Your task to perform on an android device: Find a nice sofa on eBay Image 0: 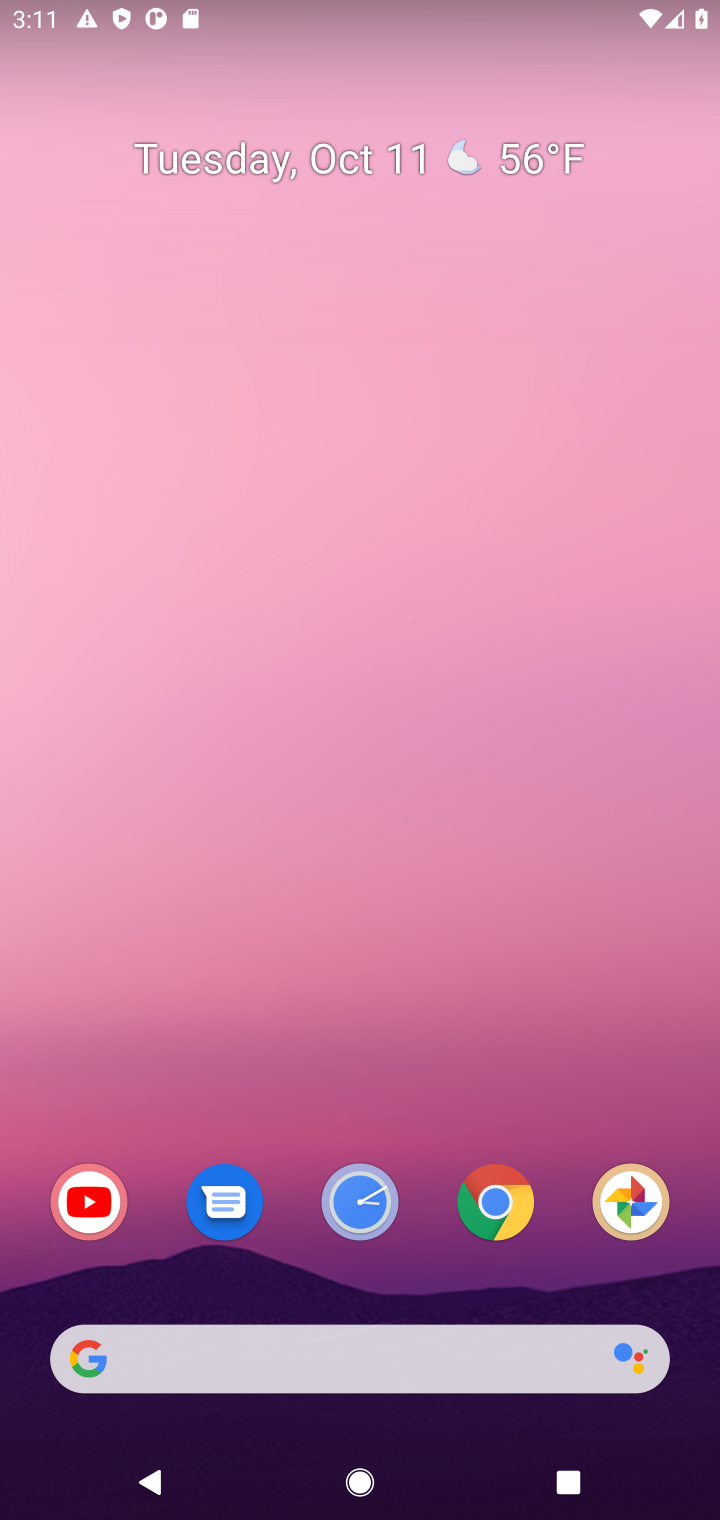
Step 0: click (488, 1218)
Your task to perform on an android device: Find a nice sofa on eBay Image 1: 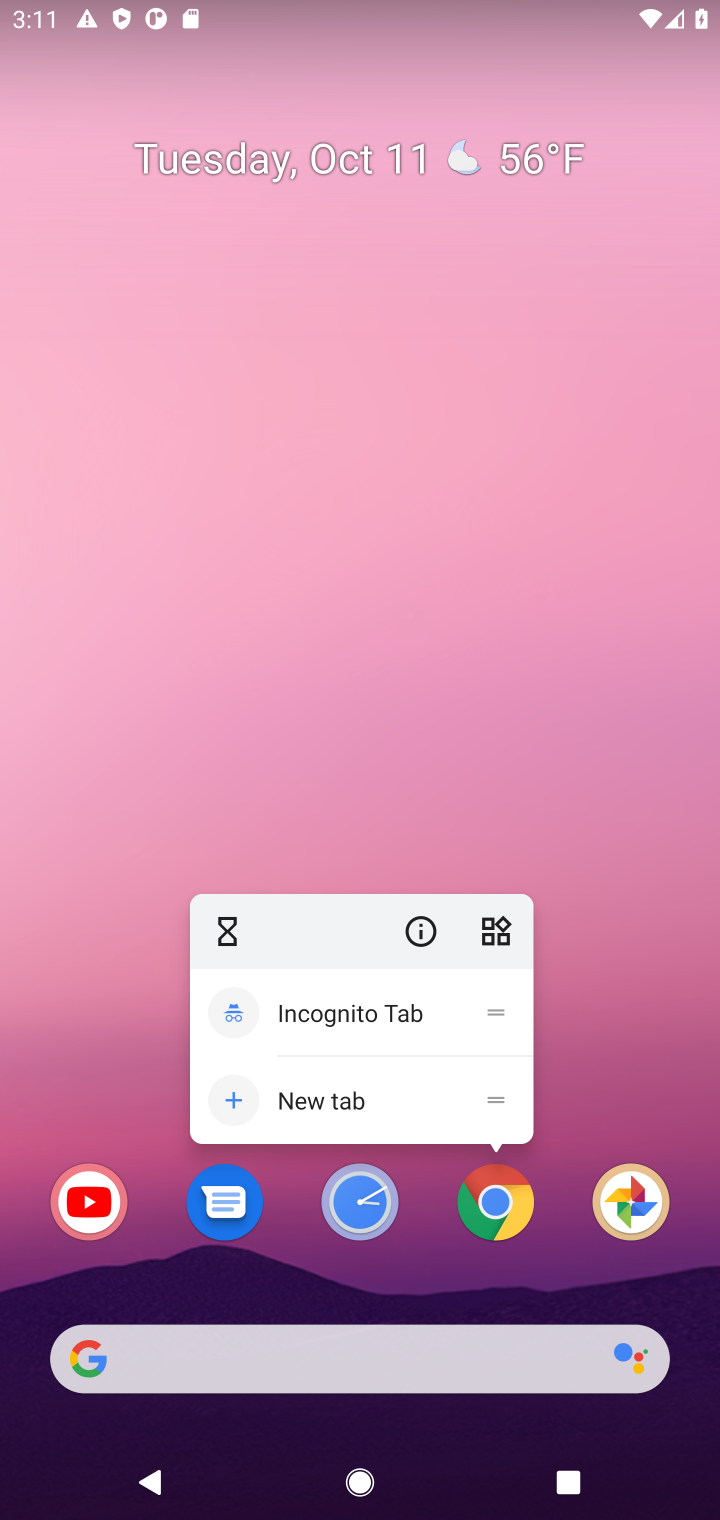
Step 1: drag from (453, 1289) to (561, 206)
Your task to perform on an android device: Find a nice sofa on eBay Image 2: 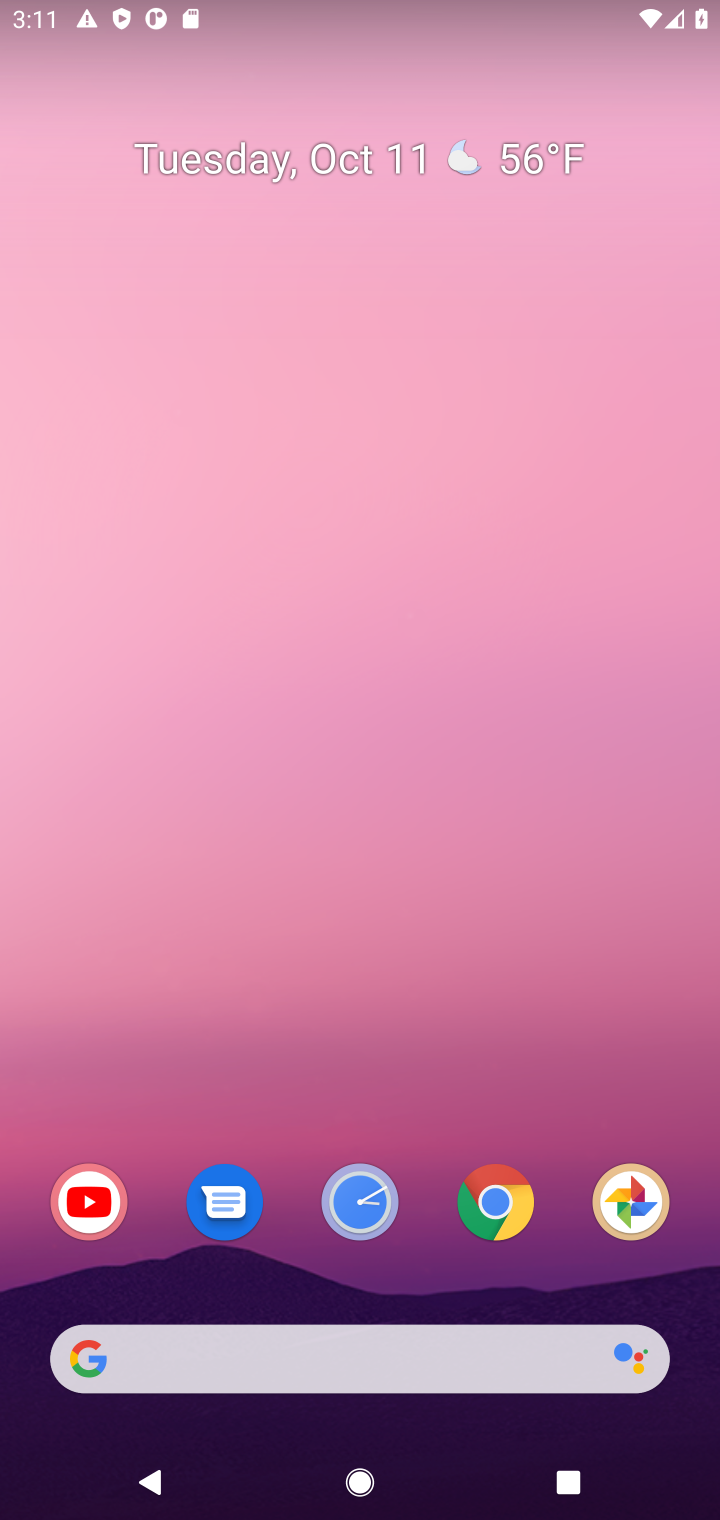
Step 2: drag from (377, 1033) to (495, 352)
Your task to perform on an android device: Find a nice sofa on eBay Image 3: 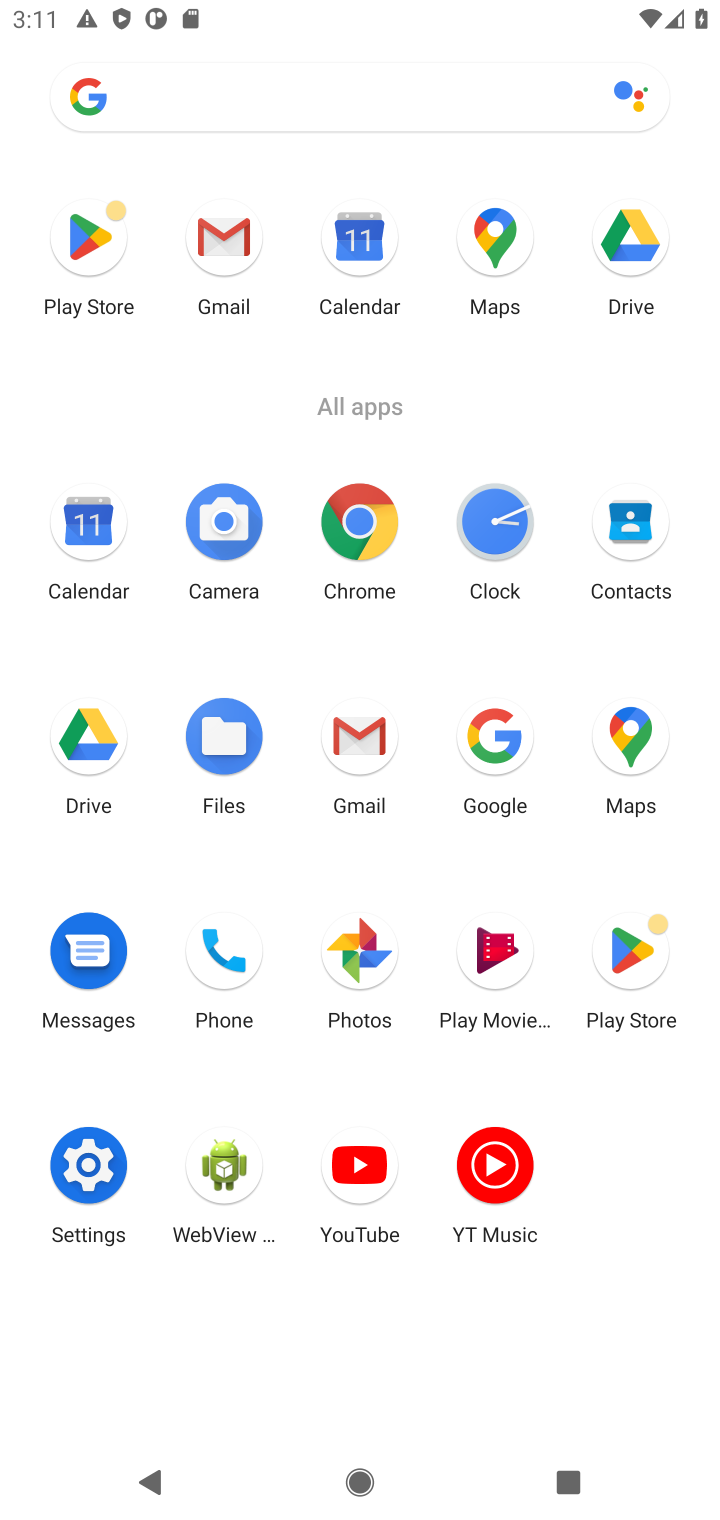
Step 3: click (375, 511)
Your task to perform on an android device: Find a nice sofa on eBay Image 4: 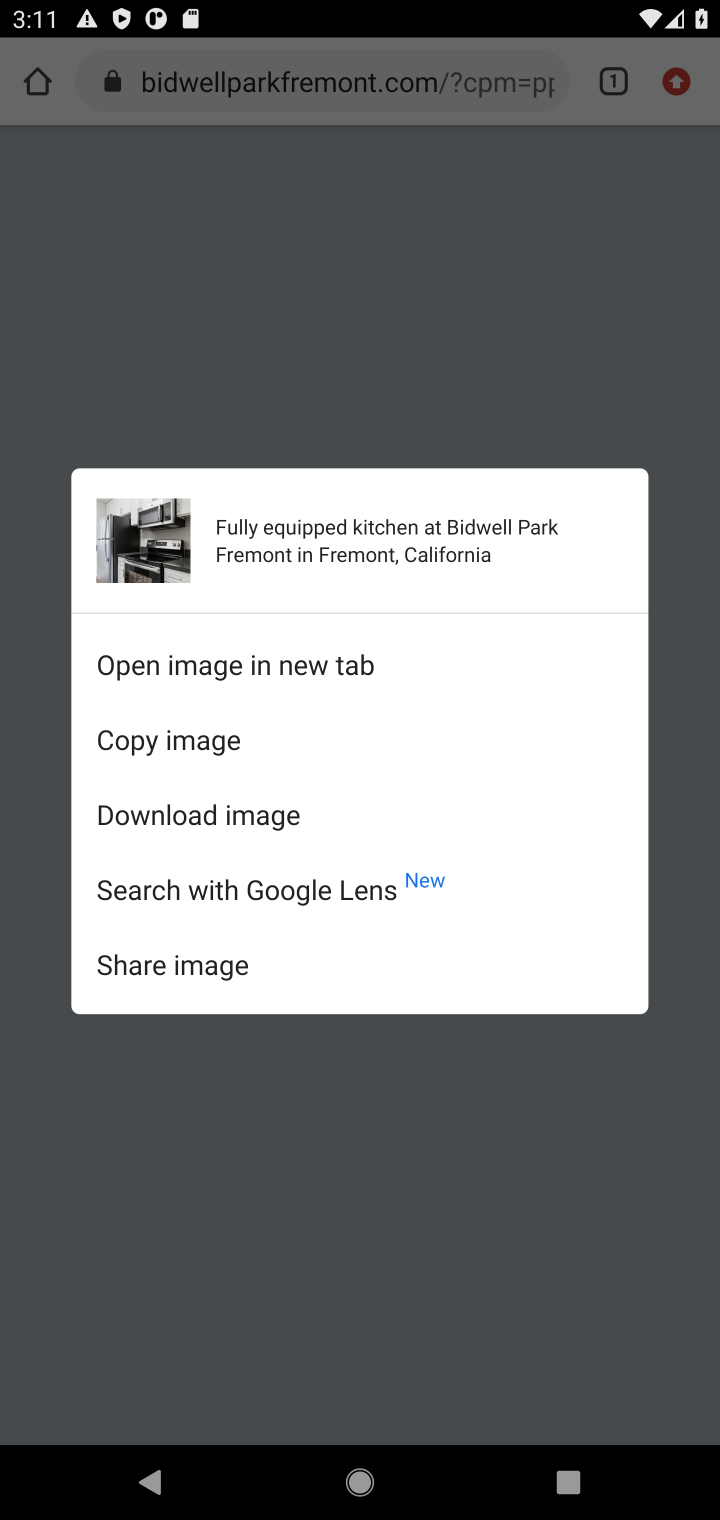
Step 4: click (485, 346)
Your task to perform on an android device: Find a nice sofa on eBay Image 5: 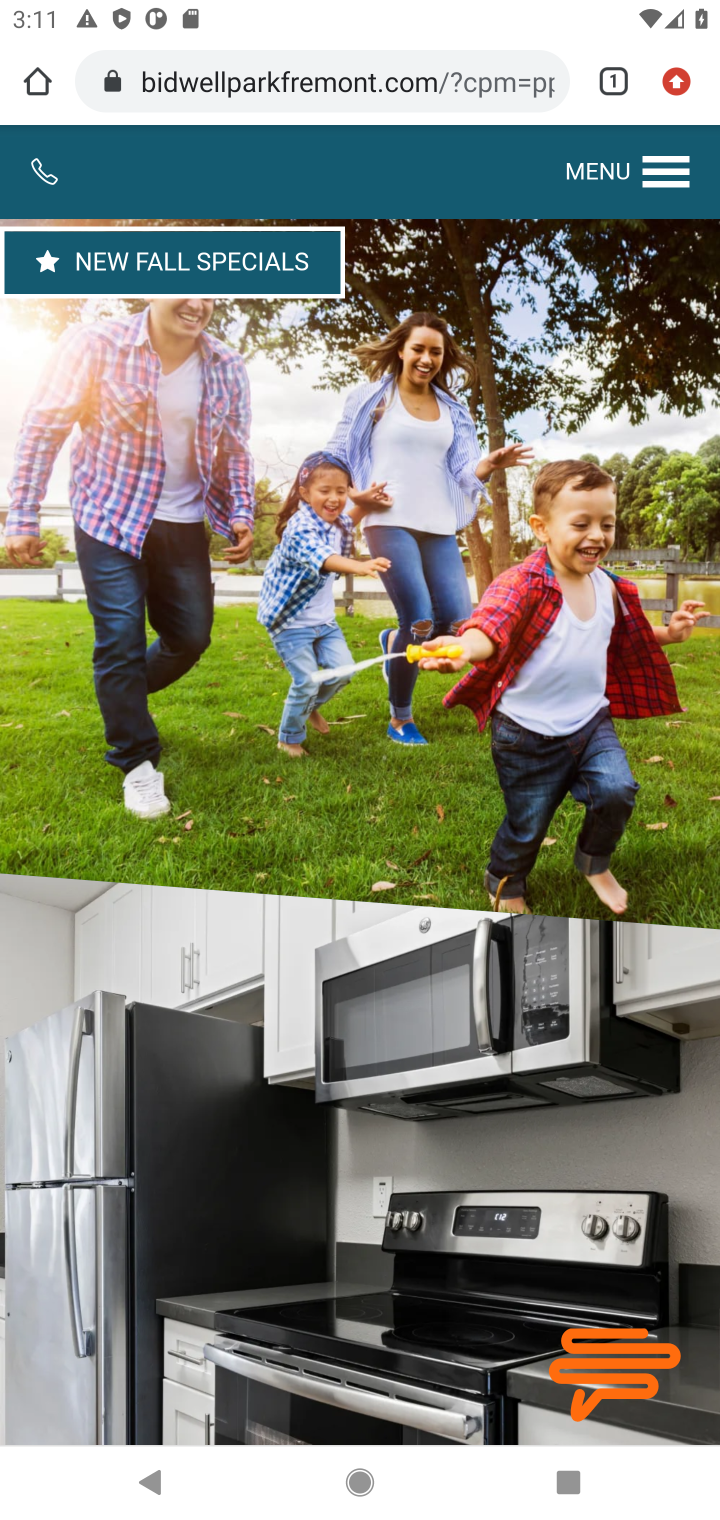
Step 5: click (412, 74)
Your task to perform on an android device: Find a nice sofa on eBay Image 6: 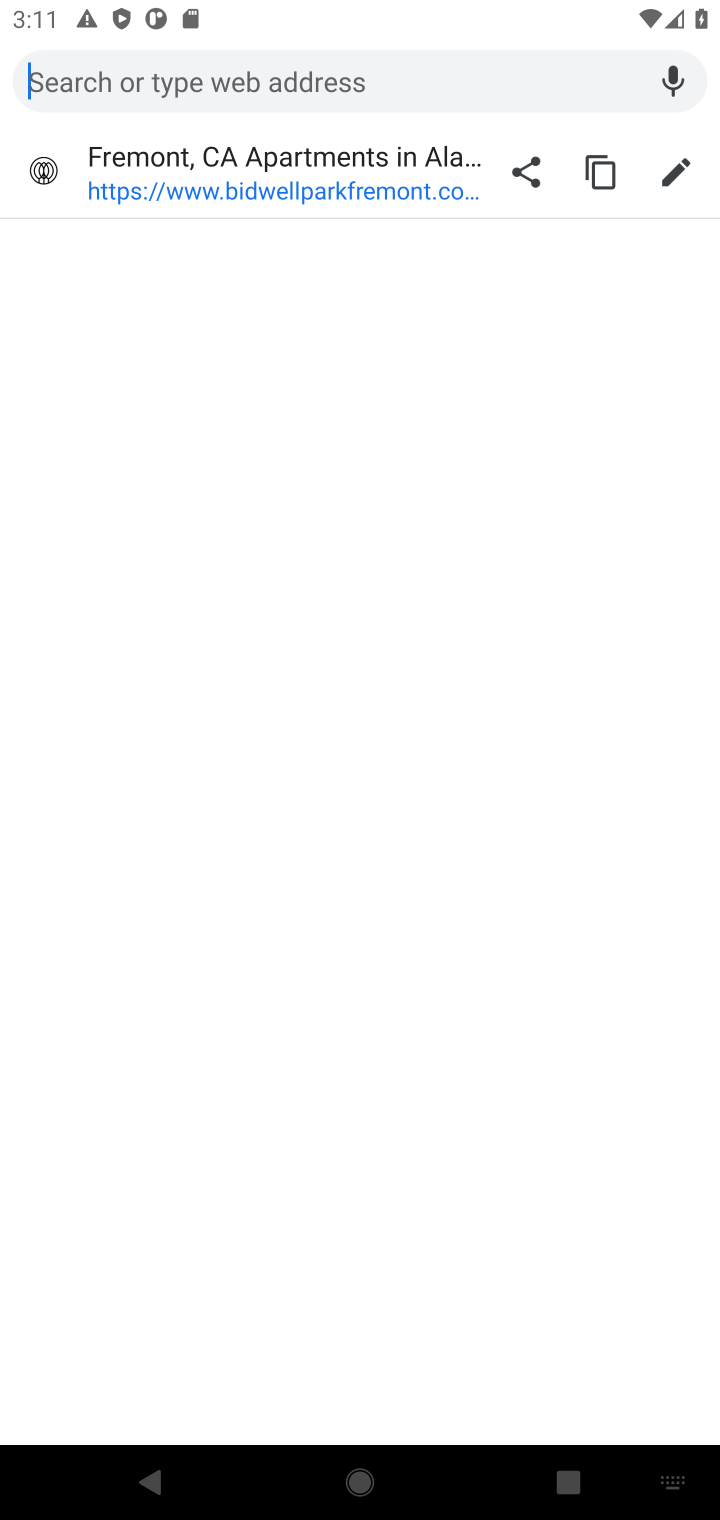
Step 6: type "a nice sofa on eBay"
Your task to perform on an android device: Find a nice sofa on eBay Image 7: 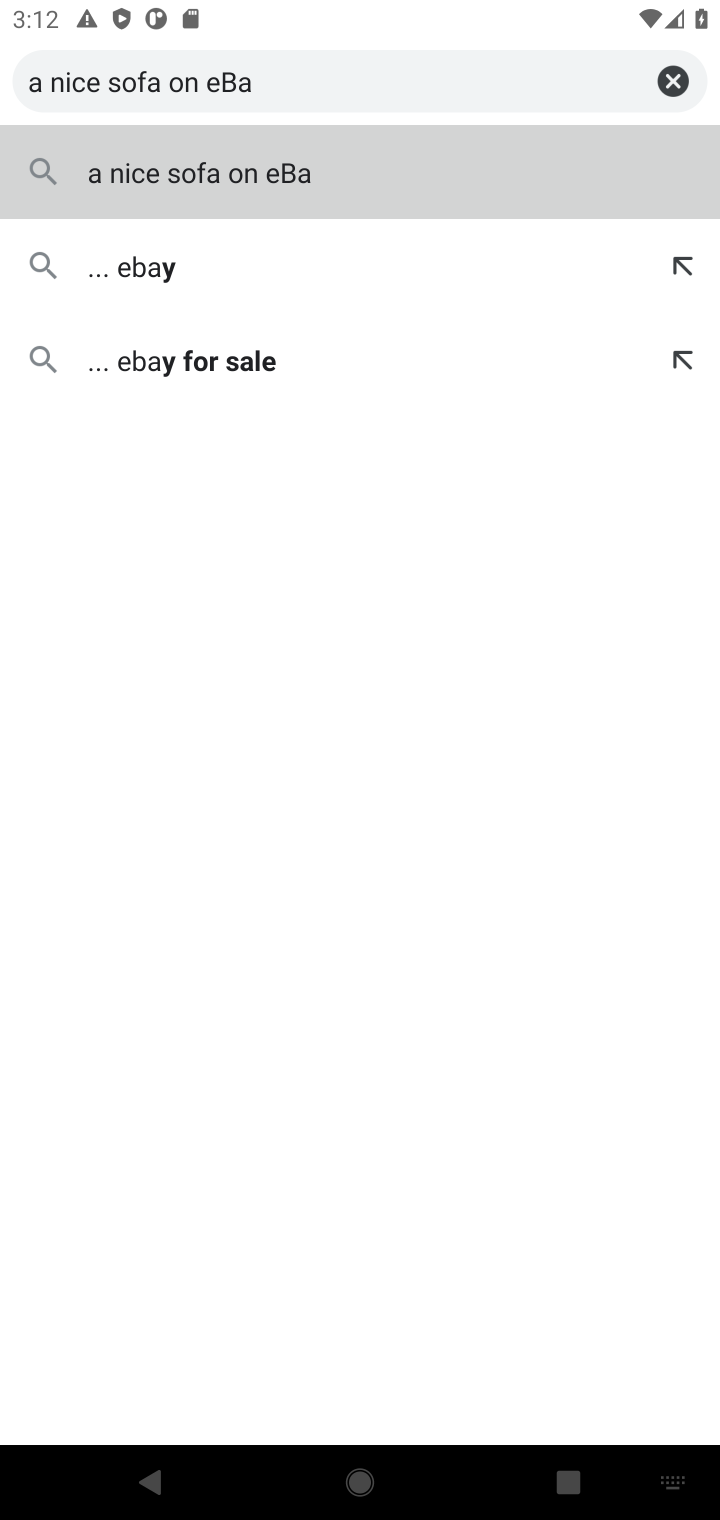
Step 7: type ""
Your task to perform on an android device: Find a nice sofa on eBay Image 8: 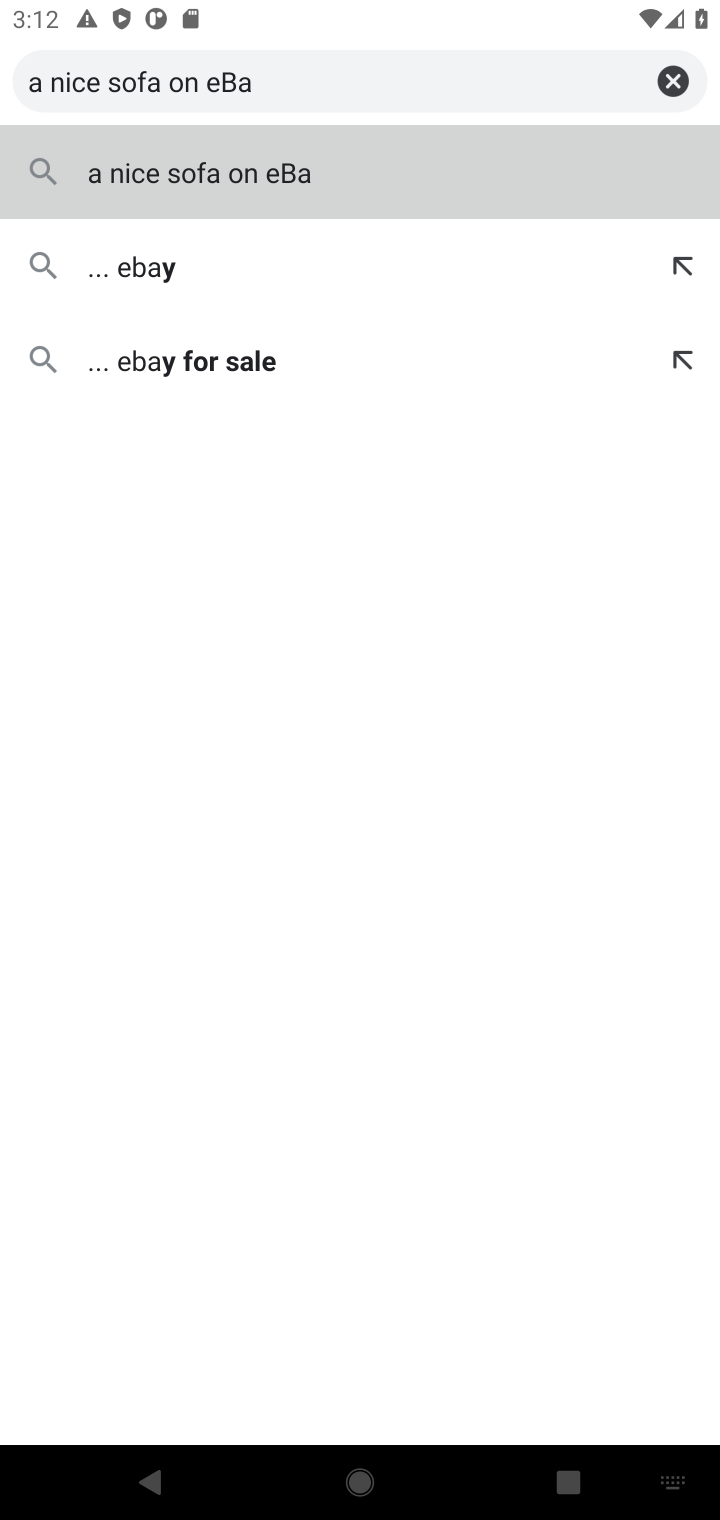
Step 8: click (209, 192)
Your task to perform on an android device: Find a nice sofa on eBay Image 9: 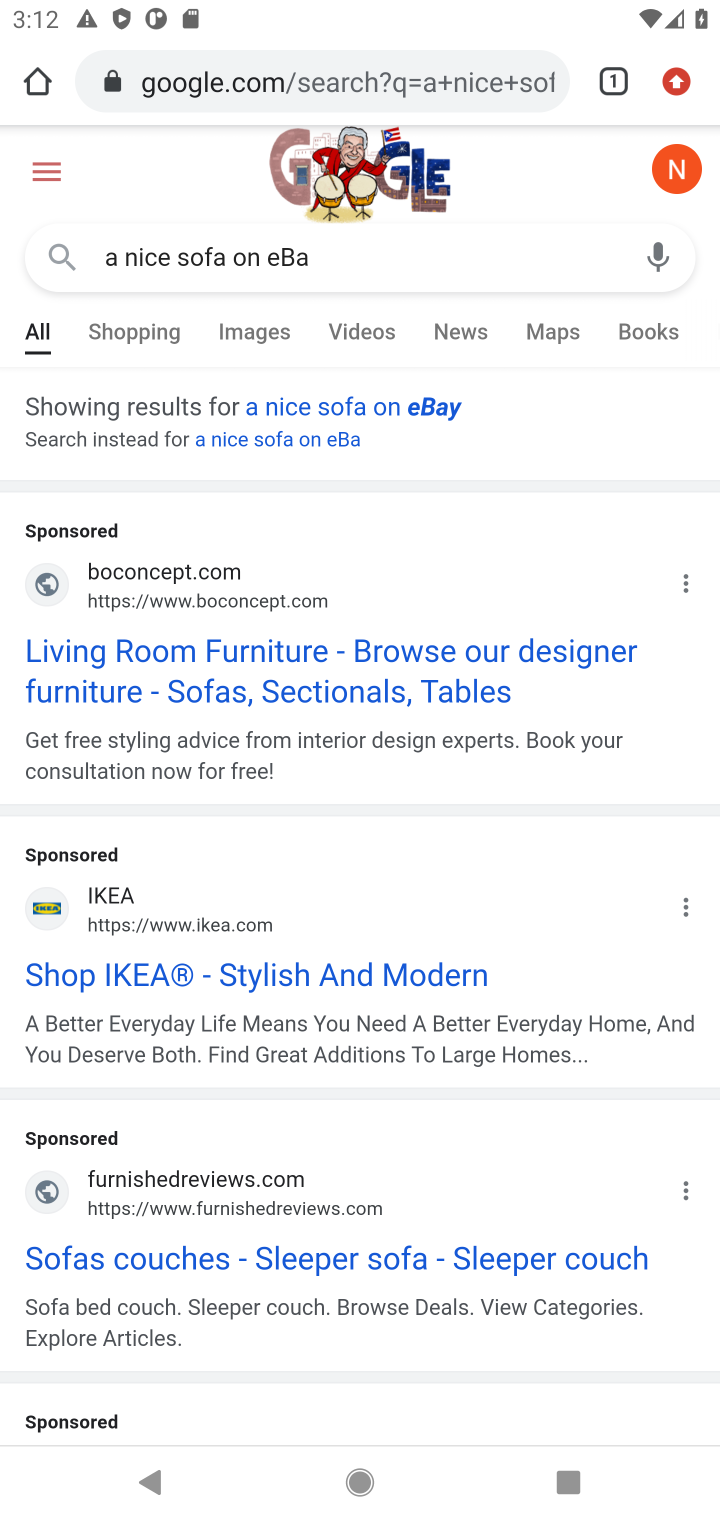
Step 9: drag from (512, 1169) to (536, 590)
Your task to perform on an android device: Find a nice sofa on eBay Image 10: 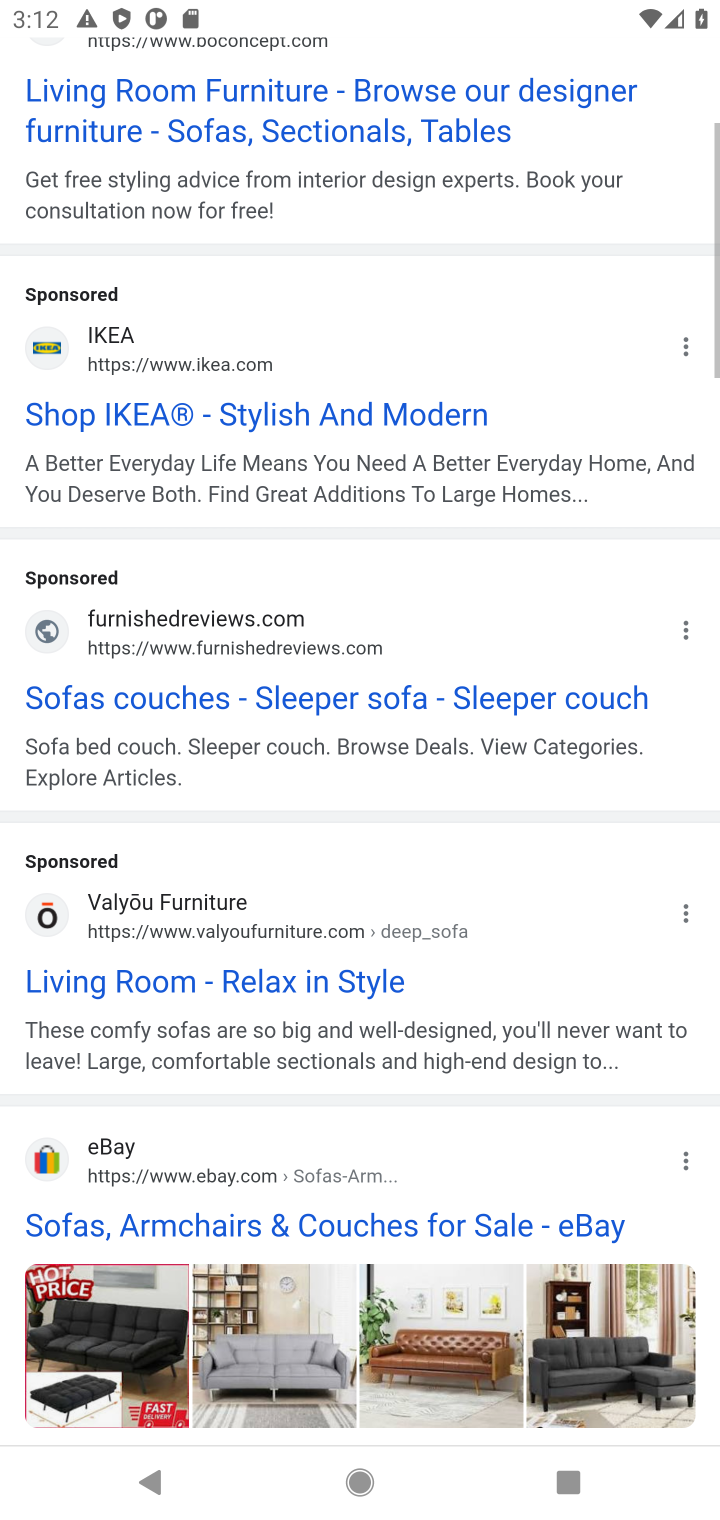
Step 10: click (391, 402)
Your task to perform on an android device: Find a nice sofa on eBay Image 11: 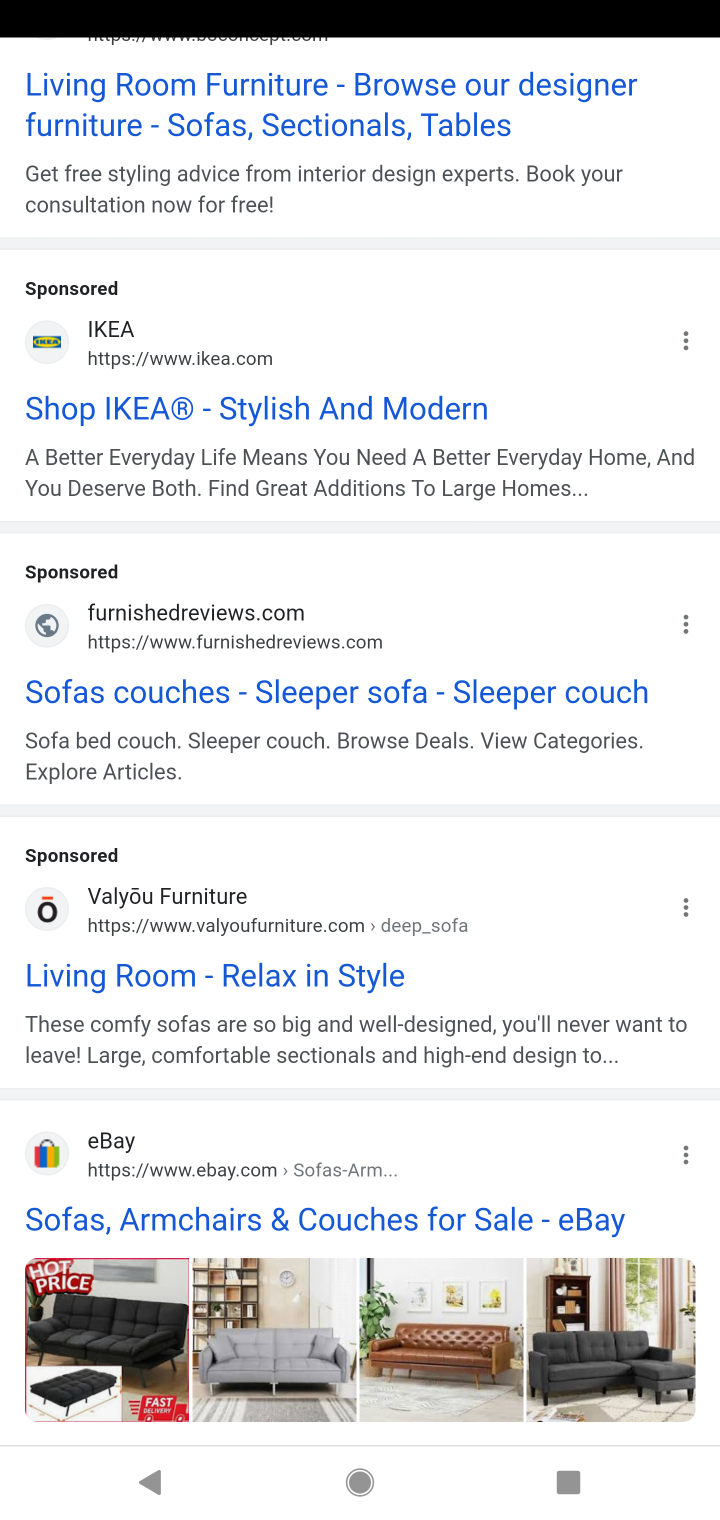
Step 11: click (519, 1268)
Your task to perform on an android device: Find a nice sofa on eBay Image 12: 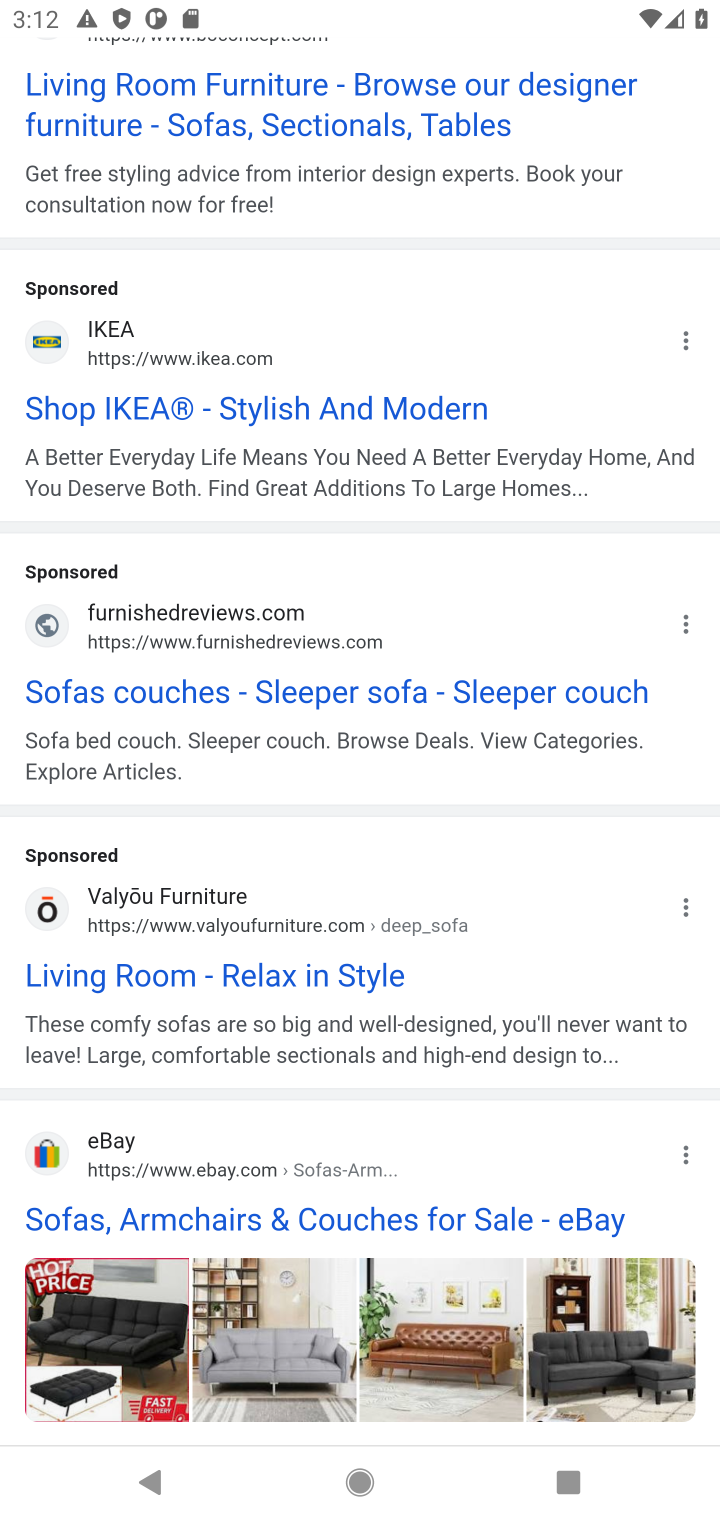
Step 12: click (361, 1238)
Your task to perform on an android device: Find a nice sofa on eBay Image 13: 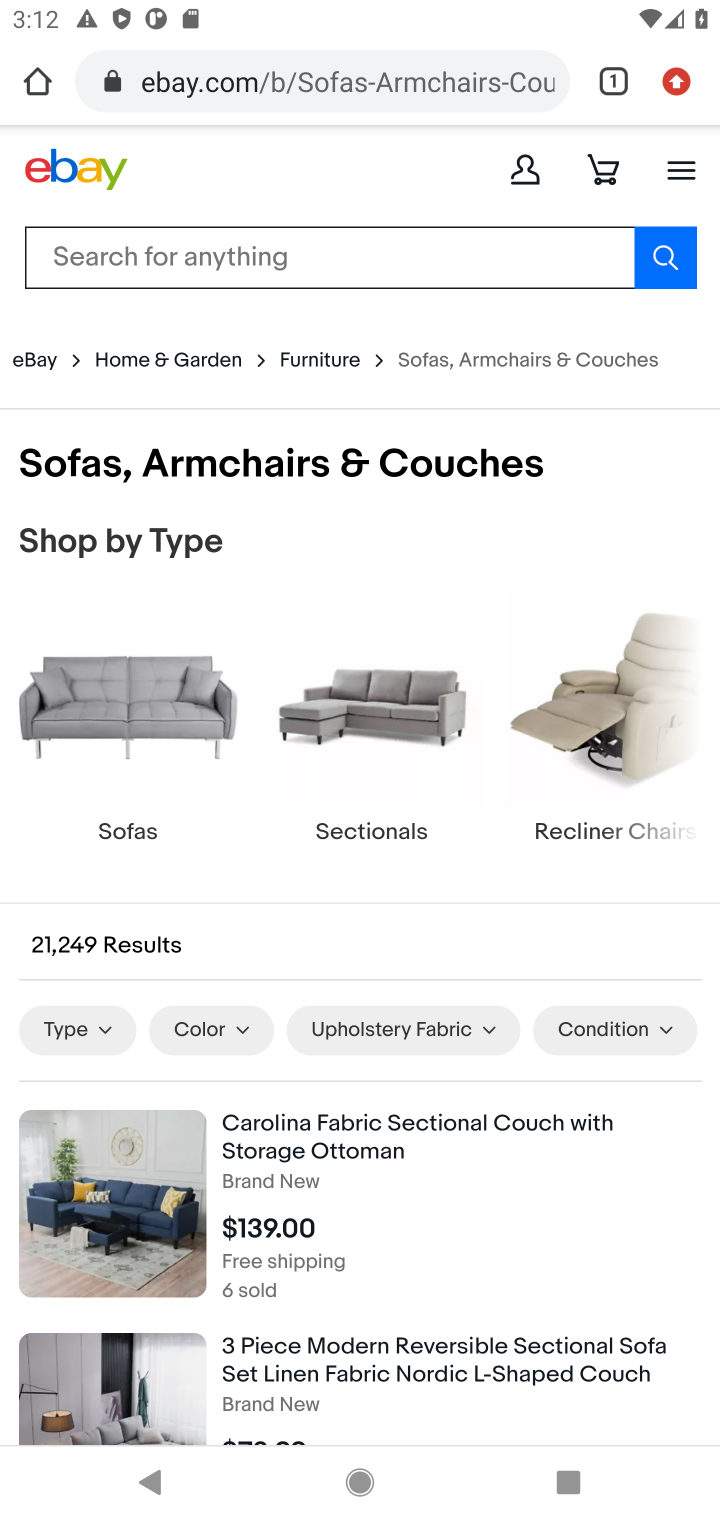
Step 13: drag from (361, 1222) to (358, 709)
Your task to perform on an android device: Find a nice sofa on eBay Image 14: 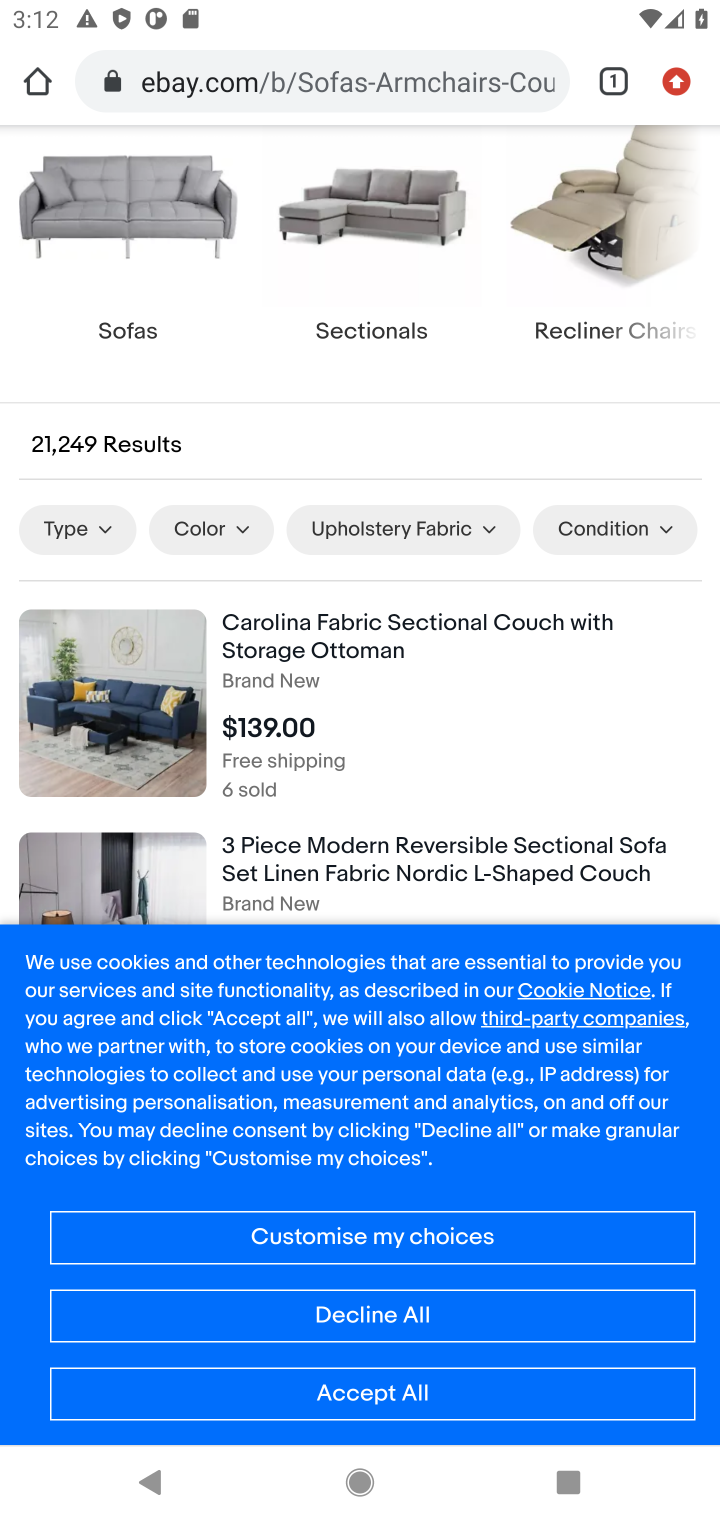
Step 14: click (471, 1324)
Your task to perform on an android device: Find a nice sofa on eBay Image 15: 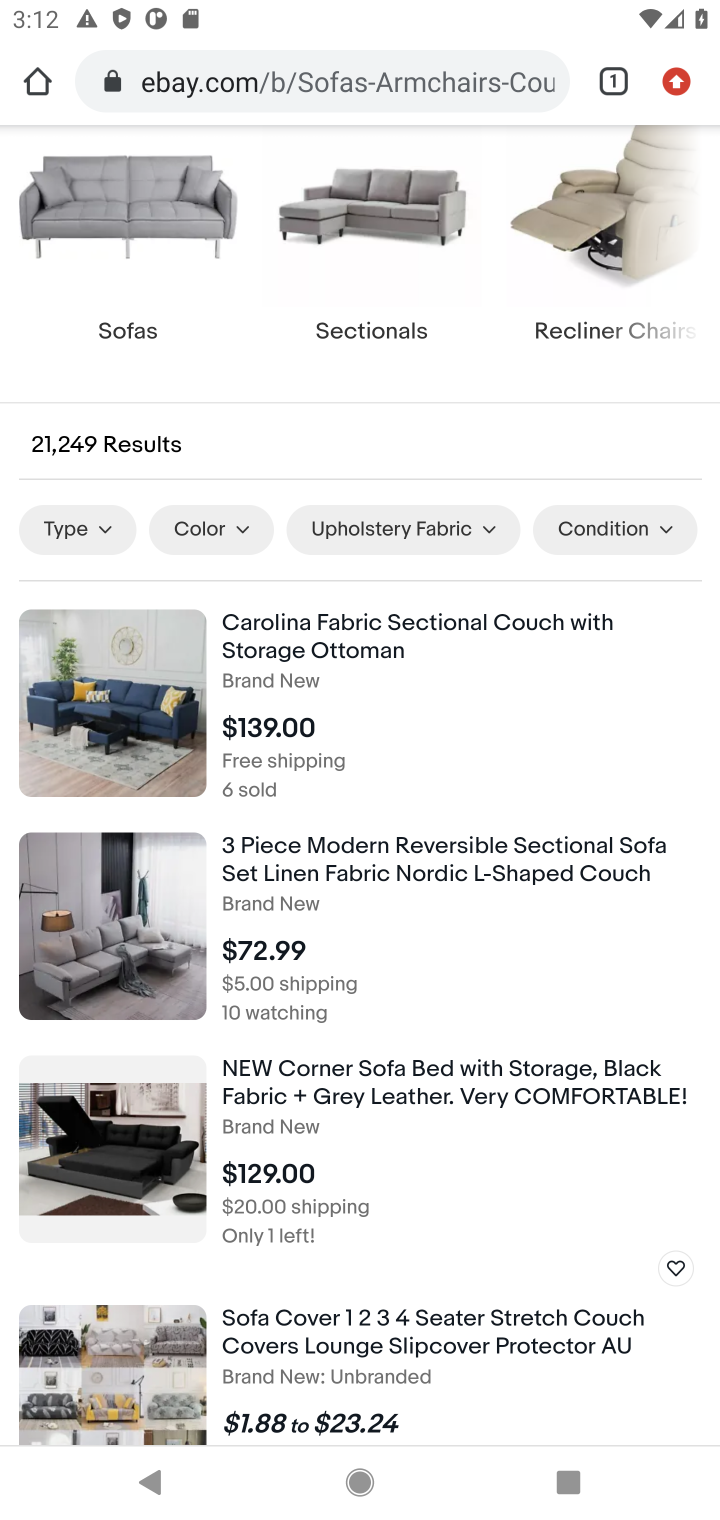
Step 15: drag from (471, 1324) to (497, 667)
Your task to perform on an android device: Find a nice sofa on eBay Image 16: 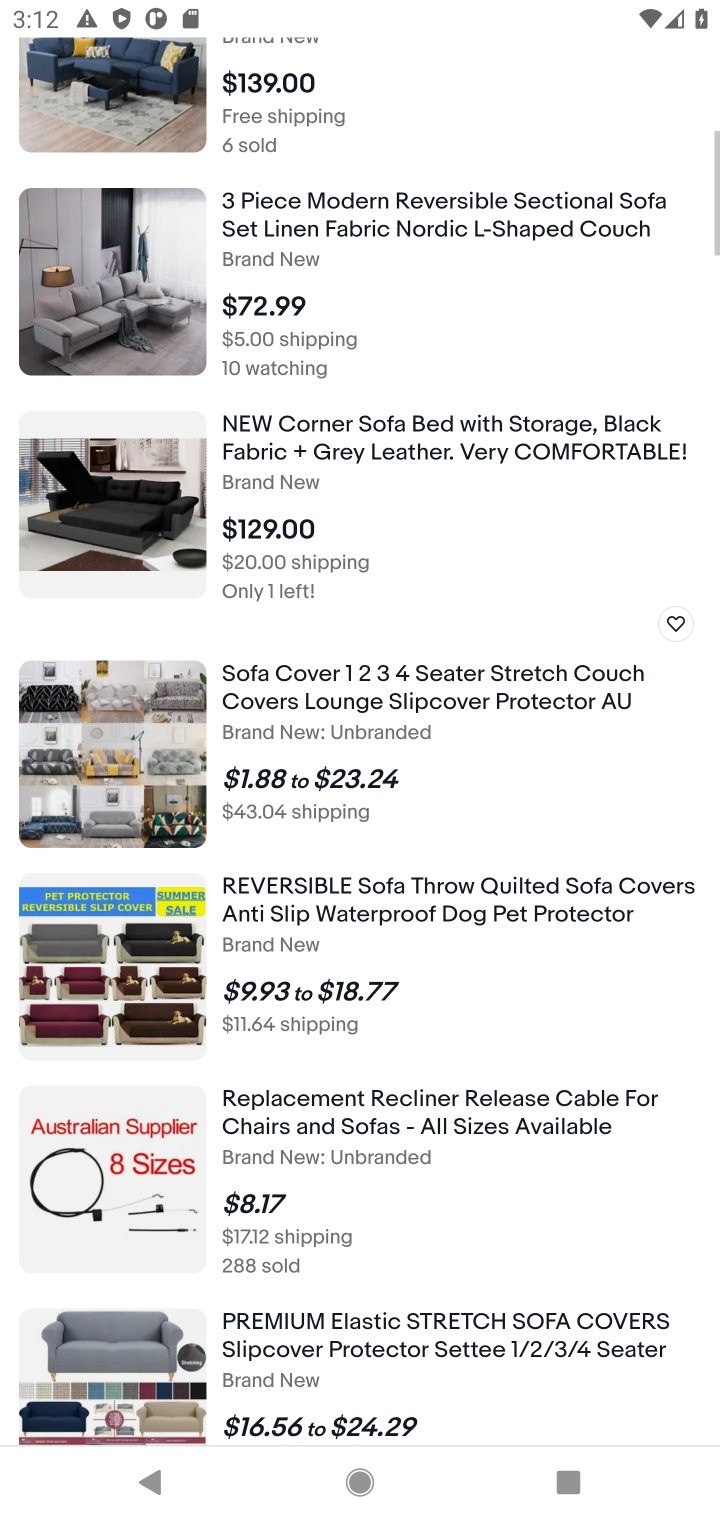
Step 16: drag from (527, 1330) to (581, 878)
Your task to perform on an android device: Find a nice sofa on eBay Image 17: 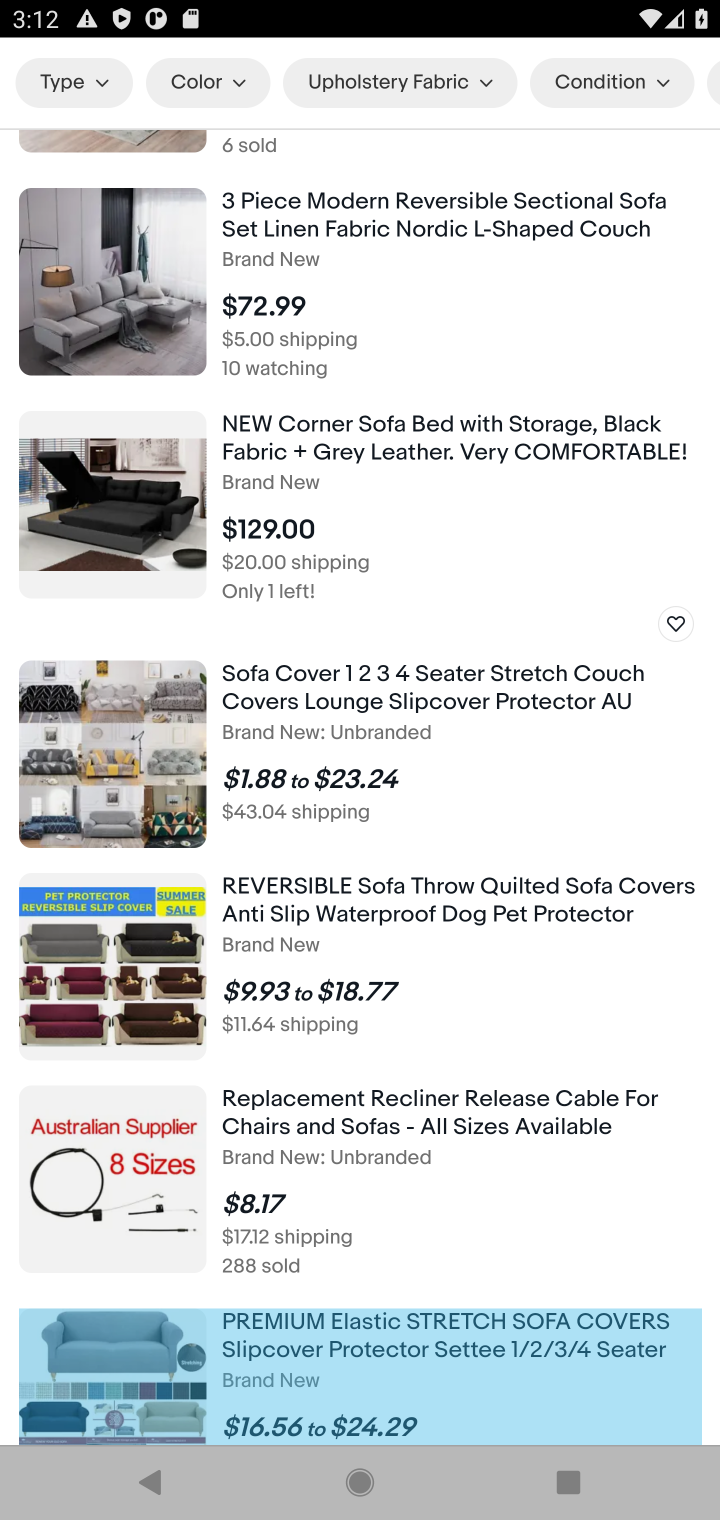
Step 17: drag from (508, 1154) to (568, 497)
Your task to perform on an android device: Find a nice sofa on eBay Image 18: 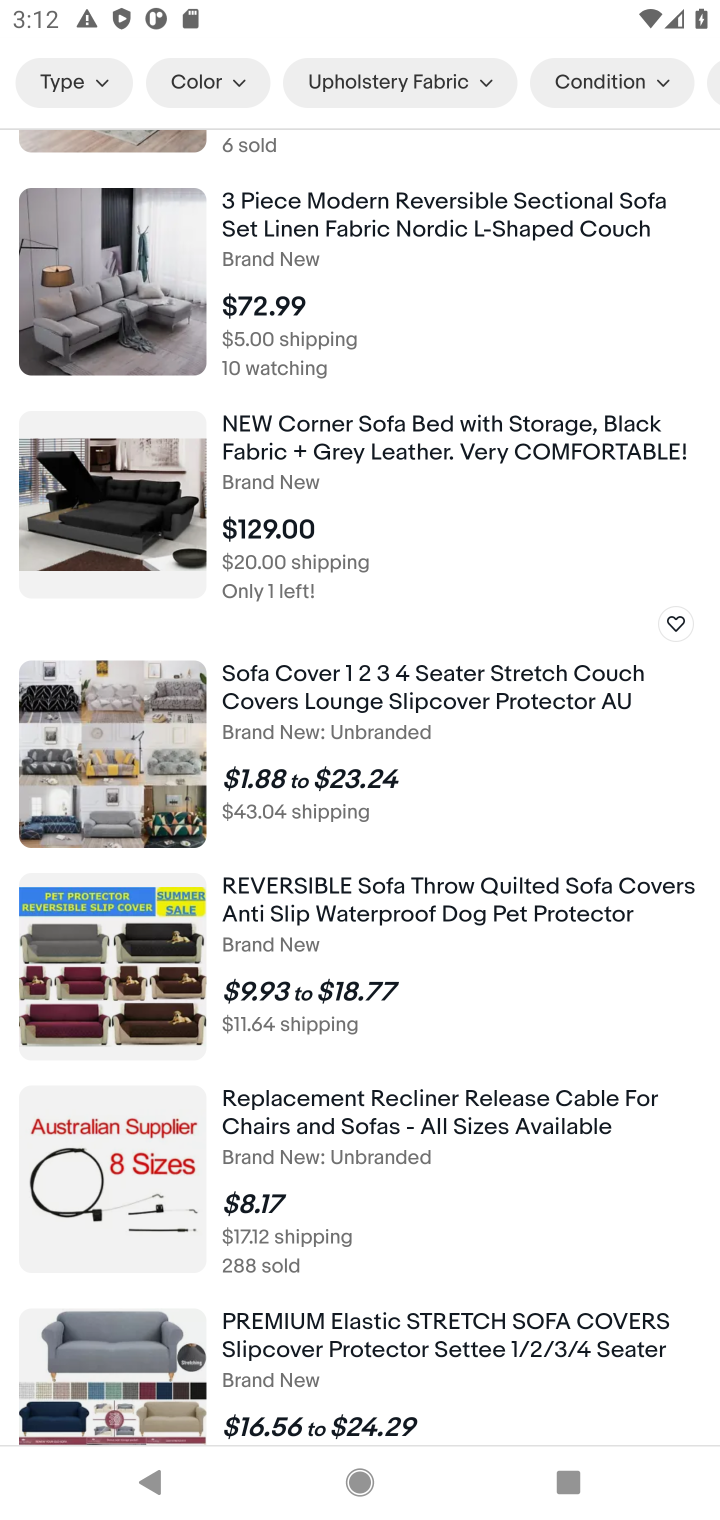
Step 18: drag from (560, 1312) to (667, 423)
Your task to perform on an android device: Find a nice sofa on eBay Image 19: 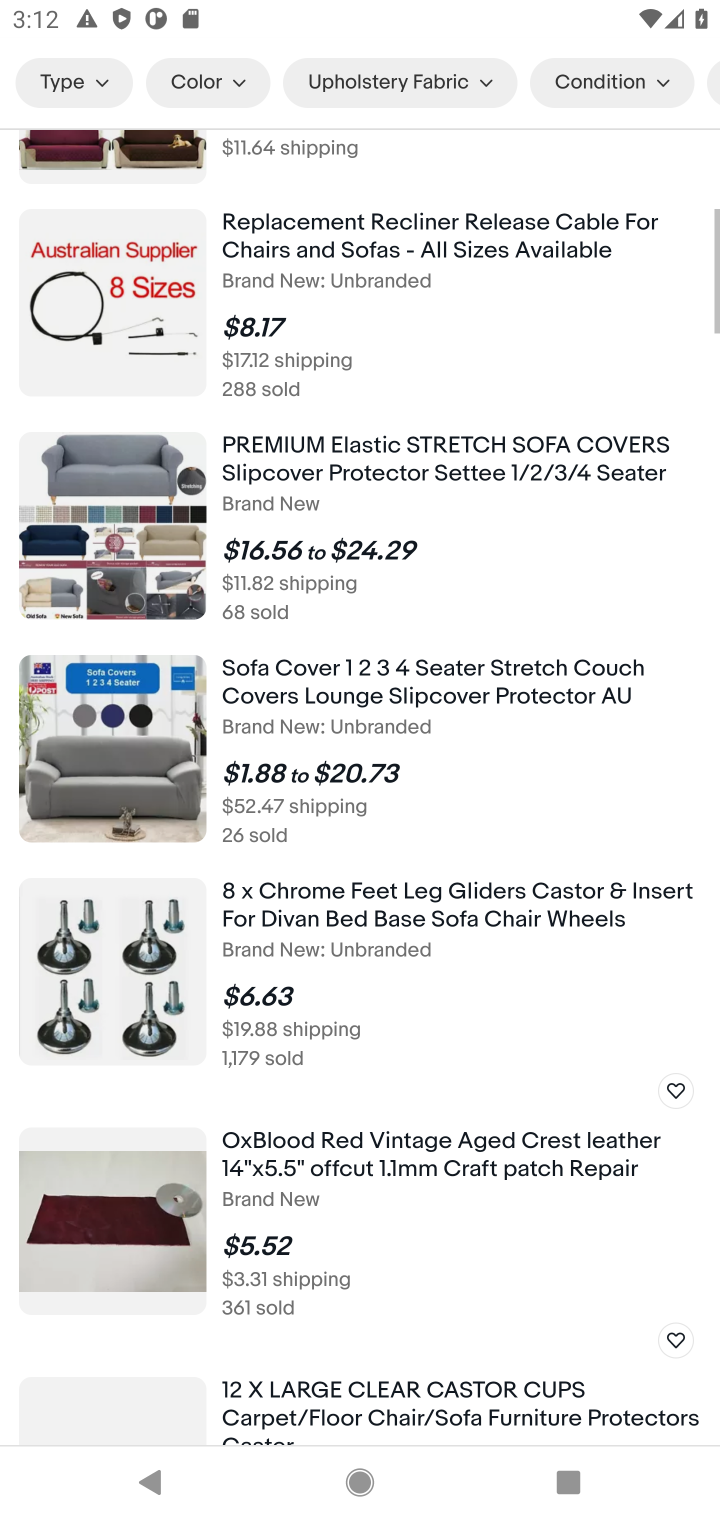
Step 19: drag from (624, 1215) to (653, 461)
Your task to perform on an android device: Find a nice sofa on eBay Image 20: 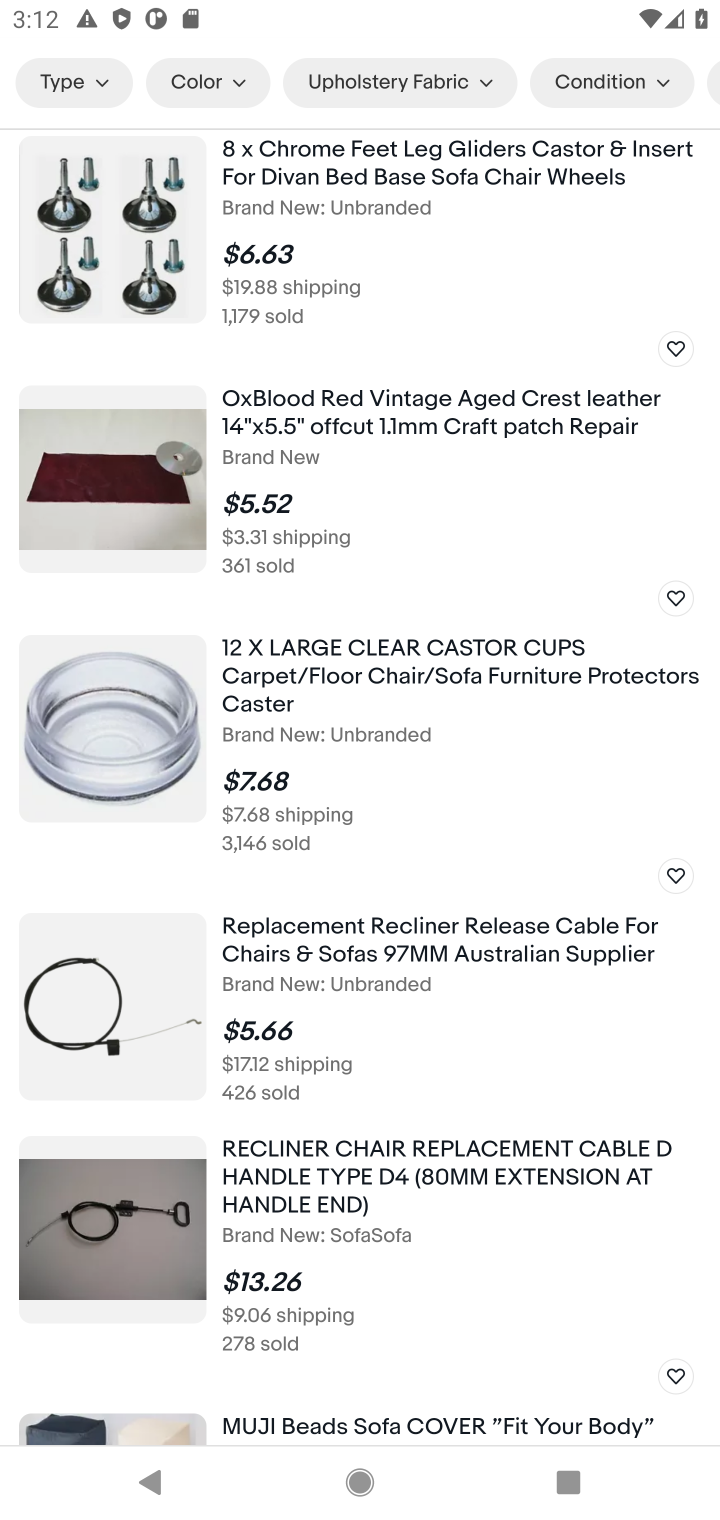
Step 20: drag from (374, 1287) to (523, 420)
Your task to perform on an android device: Find a nice sofa on eBay Image 21: 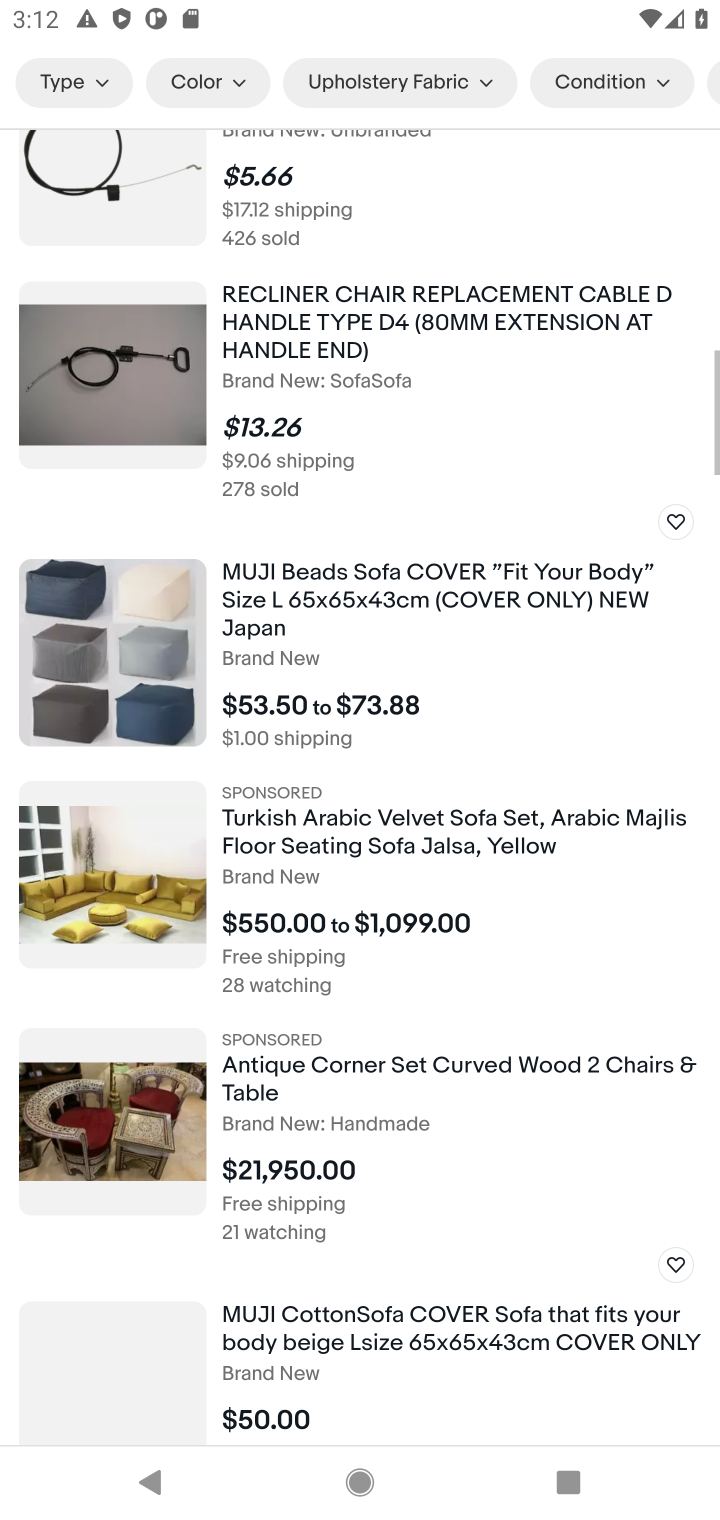
Step 21: drag from (443, 1237) to (497, 328)
Your task to perform on an android device: Find a nice sofa on eBay Image 22: 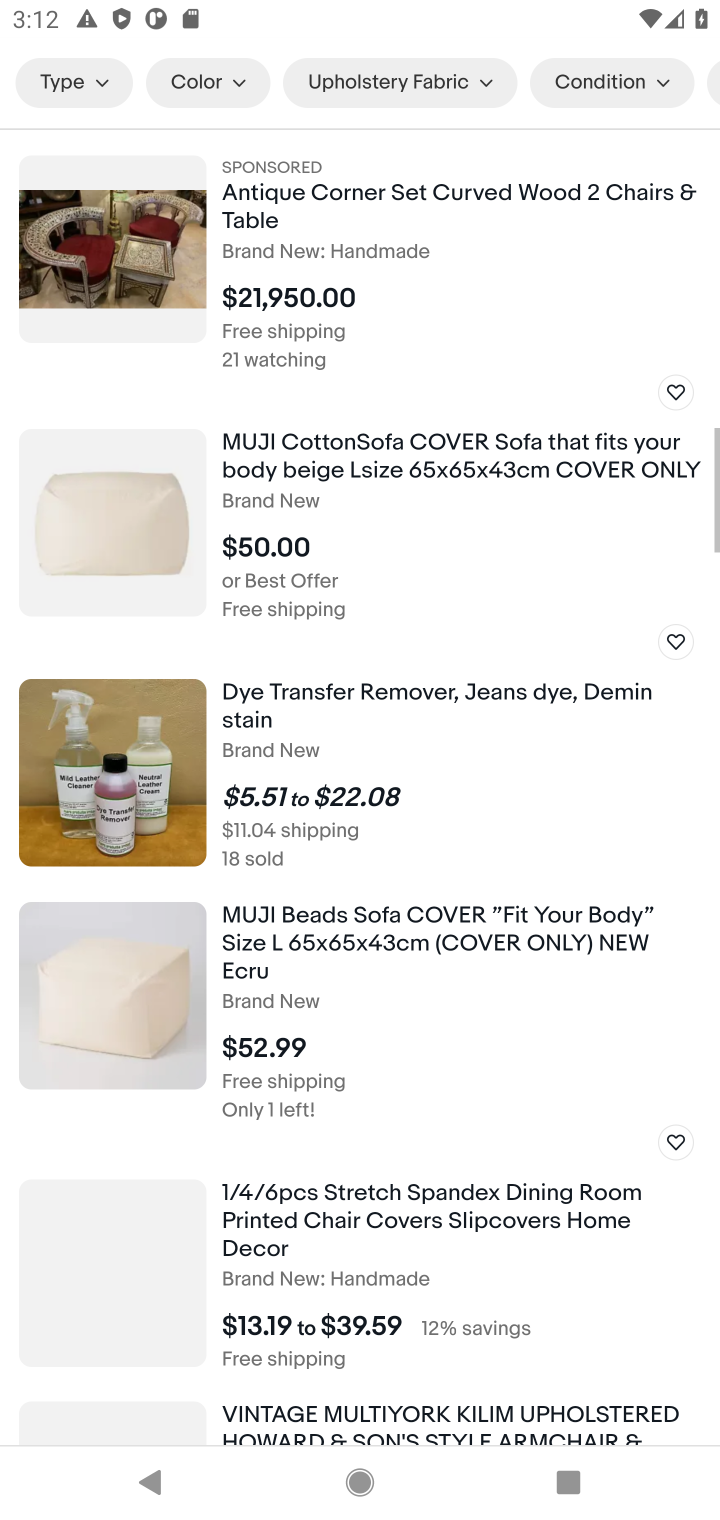
Step 22: drag from (362, 1156) to (396, 647)
Your task to perform on an android device: Find a nice sofa on eBay Image 23: 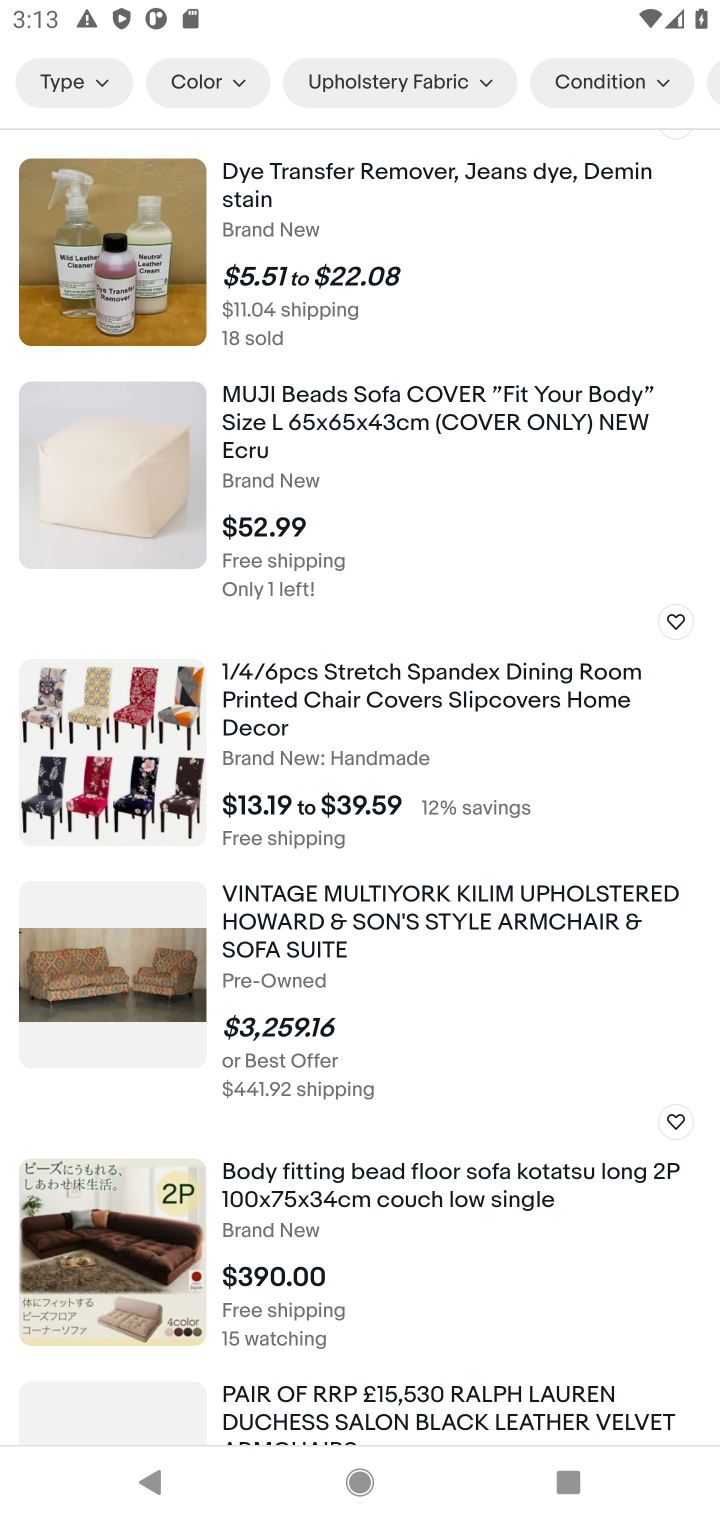
Step 23: drag from (304, 731) to (426, 87)
Your task to perform on an android device: Find a nice sofa on eBay Image 24: 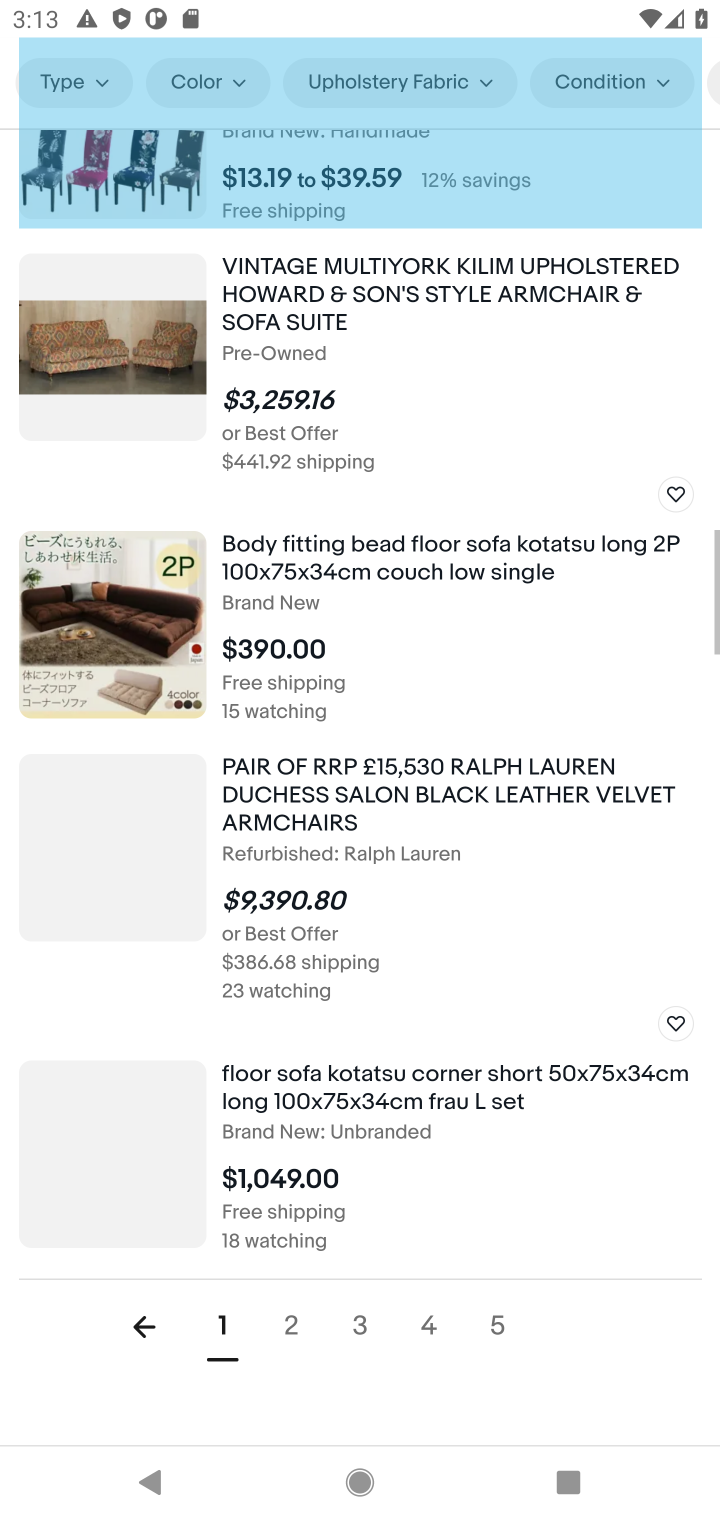
Step 24: drag from (583, 245) to (615, 79)
Your task to perform on an android device: Find a nice sofa on eBay Image 25: 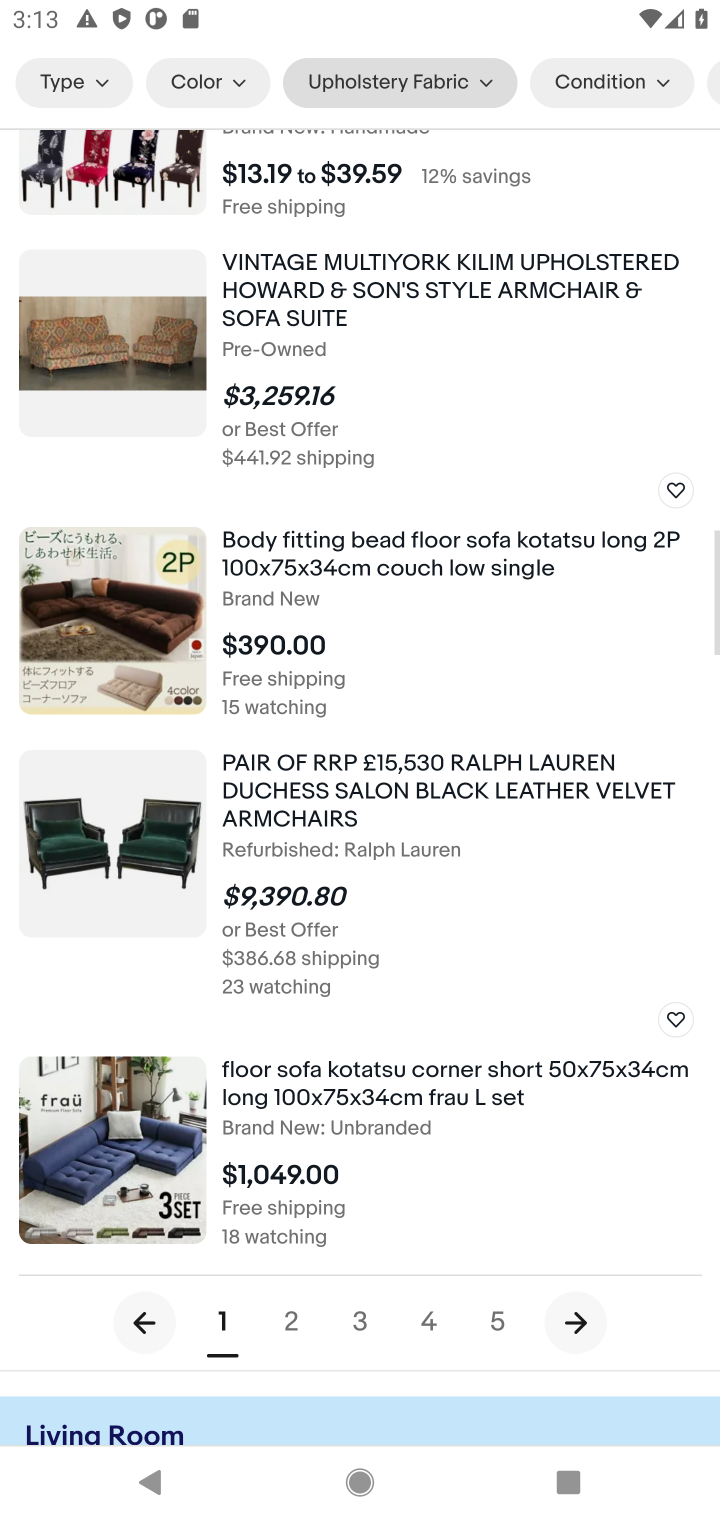
Step 25: drag from (526, 961) to (537, 275)
Your task to perform on an android device: Find a nice sofa on eBay Image 26: 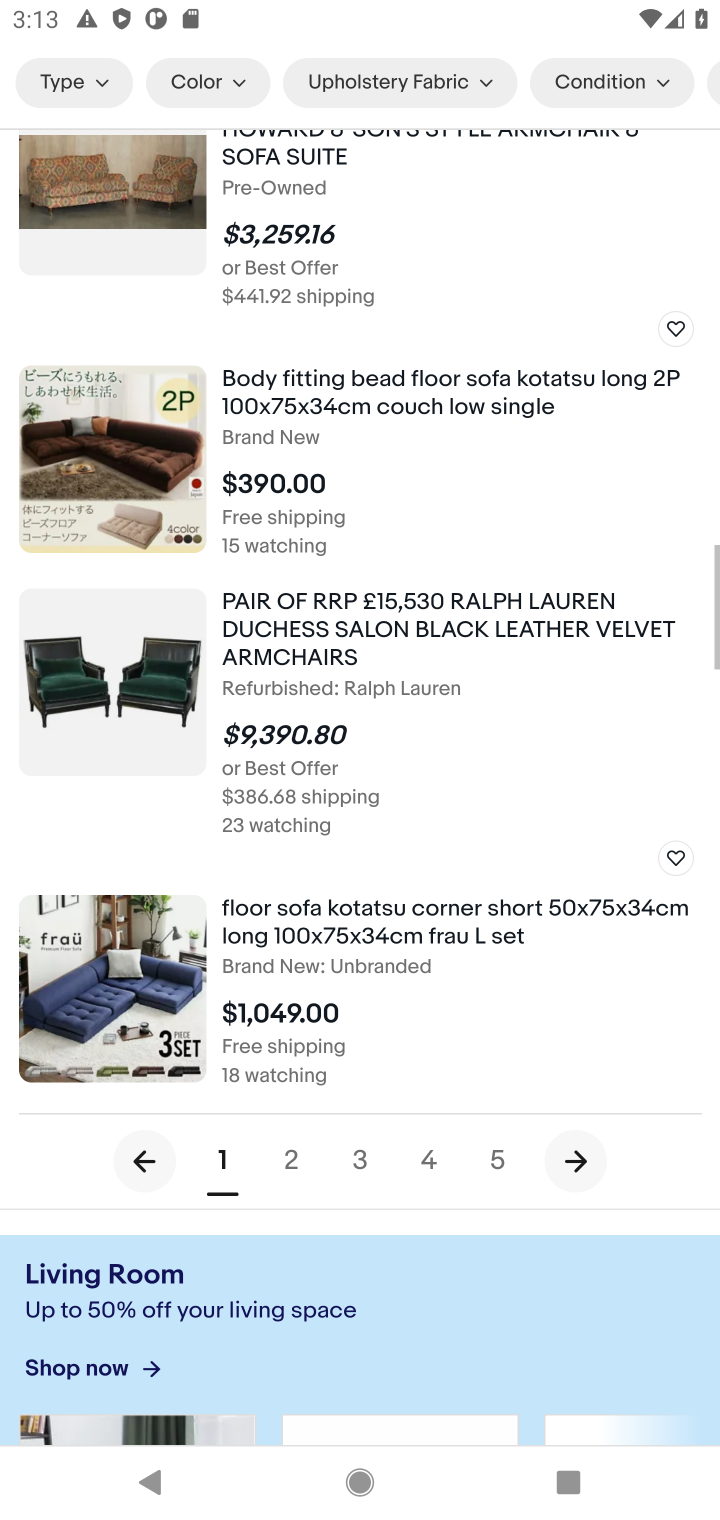
Step 26: drag from (543, 817) to (595, 268)
Your task to perform on an android device: Find a nice sofa on eBay Image 27: 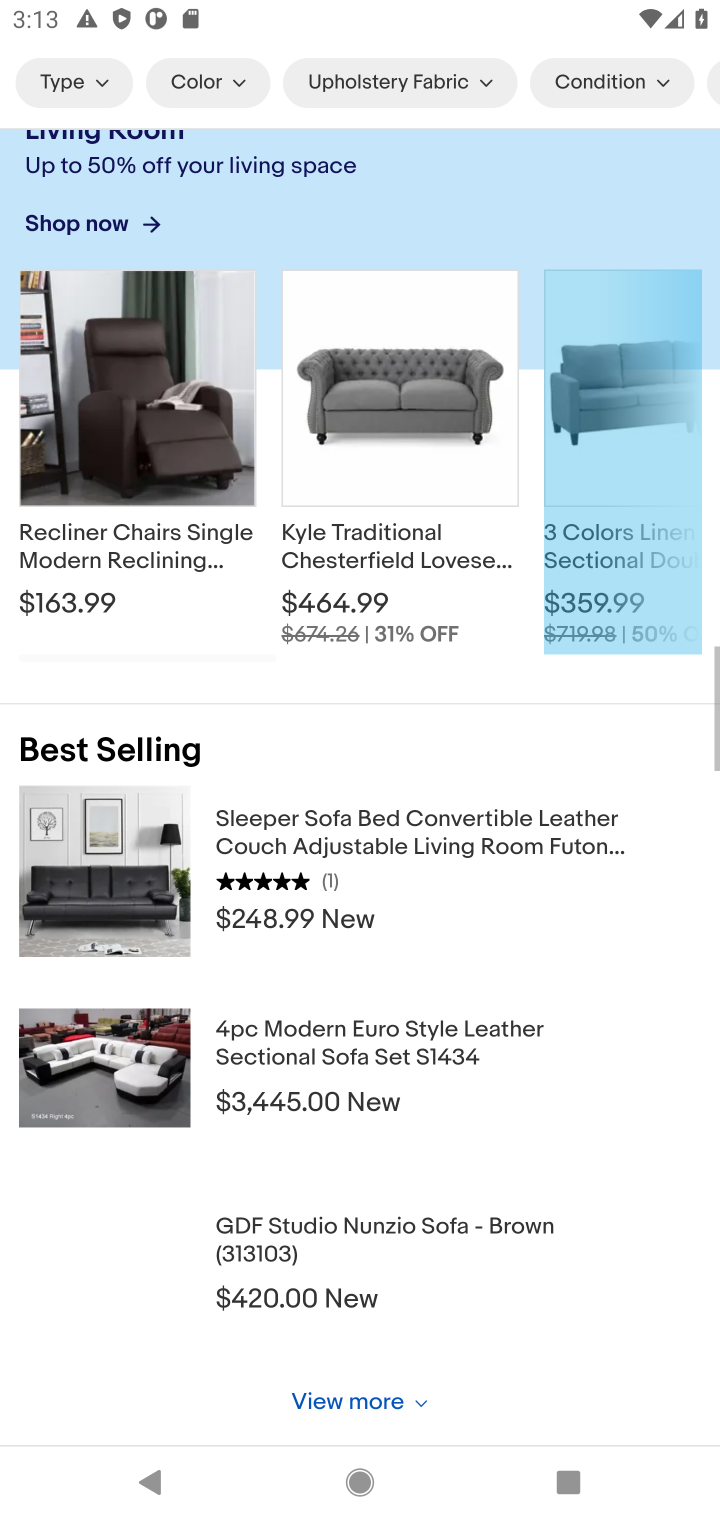
Step 27: drag from (574, 1109) to (598, 309)
Your task to perform on an android device: Find a nice sofa on eBay Image 28: 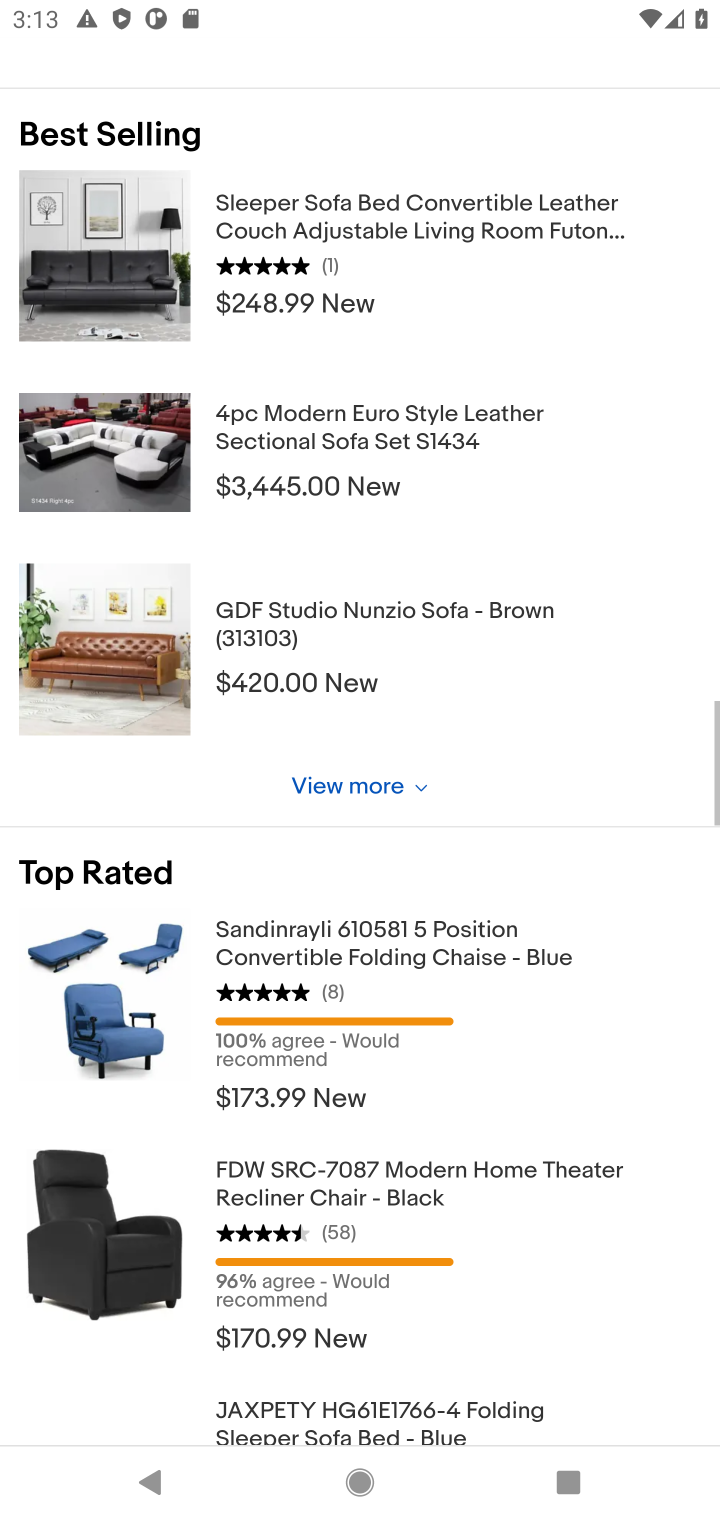
Step 28: drag from (669, 667) to (669, 383)
Your task to perform on an android device: Find a nice sofa on eBay Image 29: 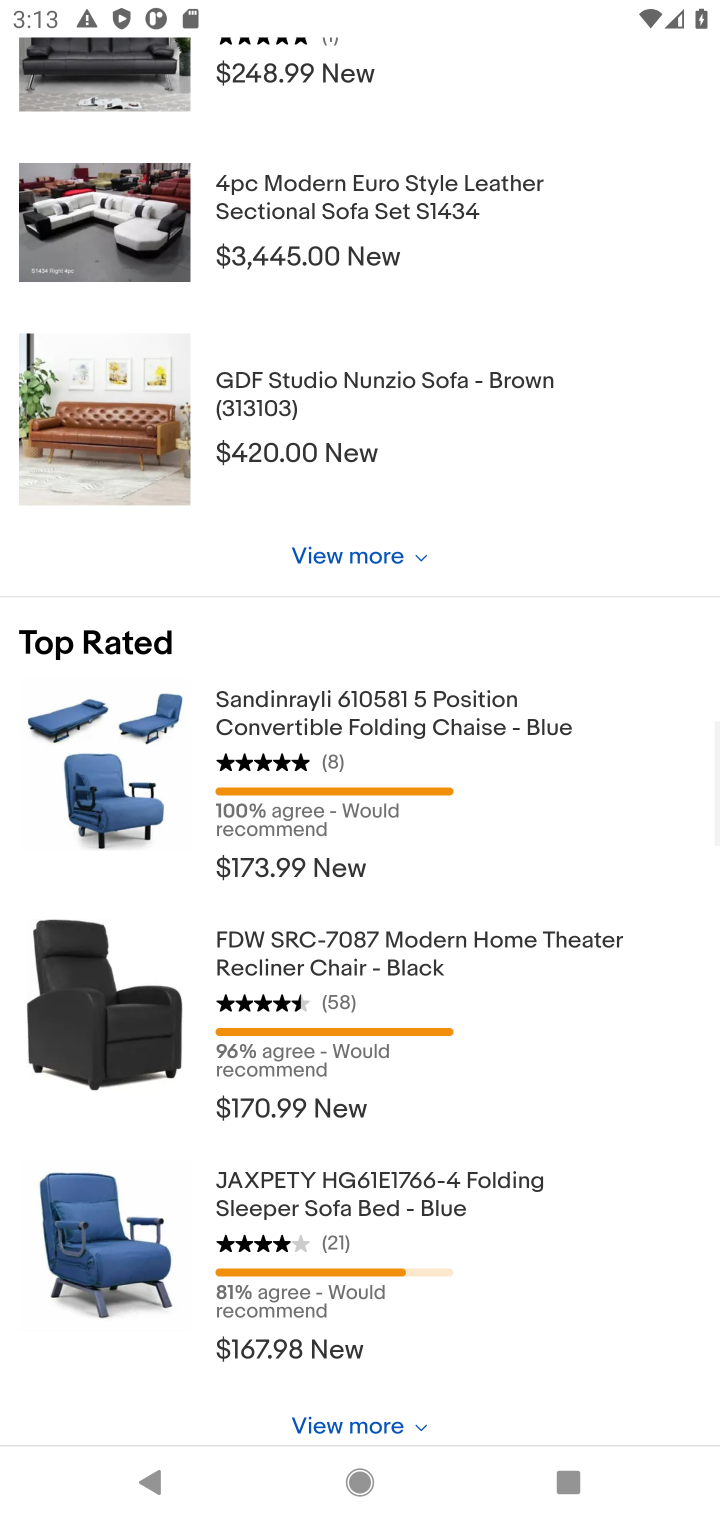
Step 29: drag from (640, 470) to (648, 369)
Your task to perform on an android device: Find a nice sofa on eBay Image 30: 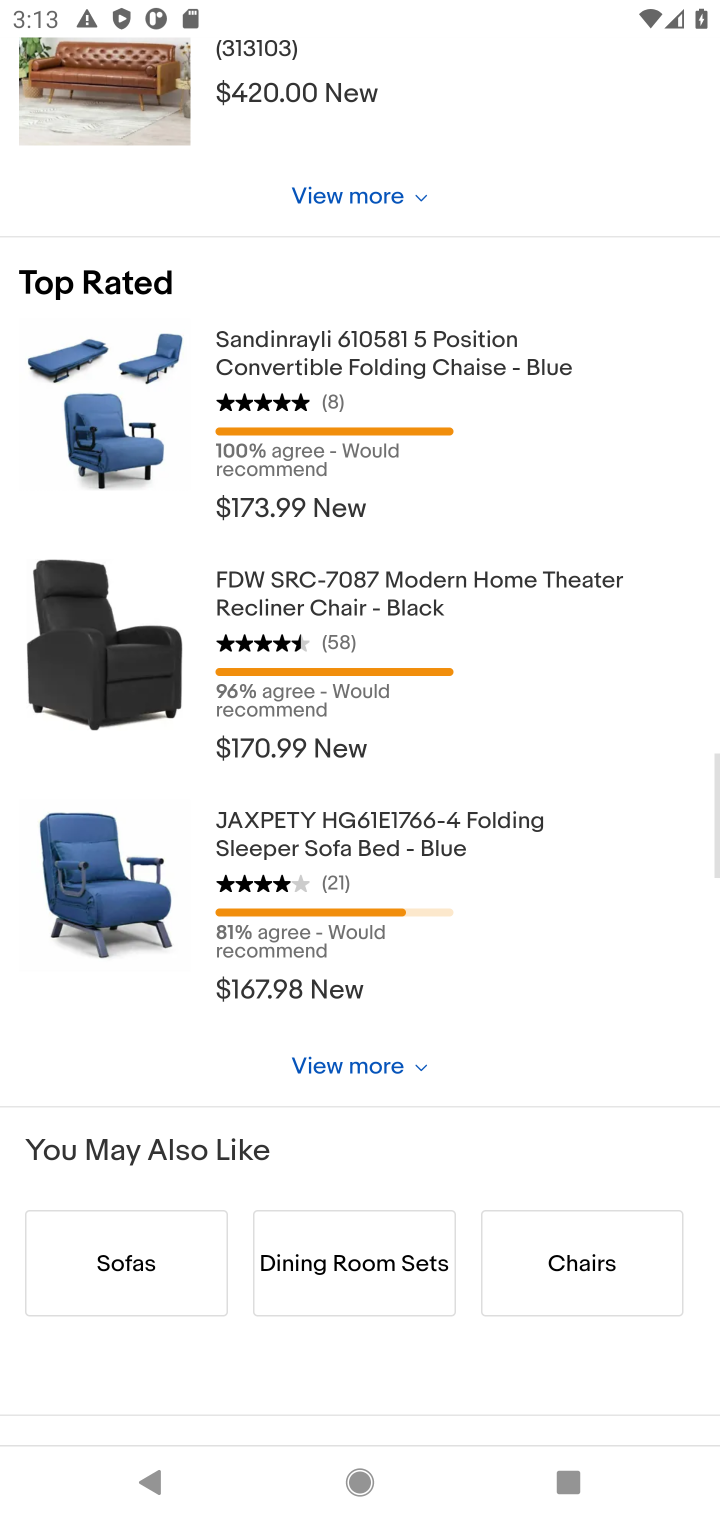
Step 30: drag from (644, 951) to (681, 312)
Your task to perform on an android device: Find a nice sofa on eBay Image 31: 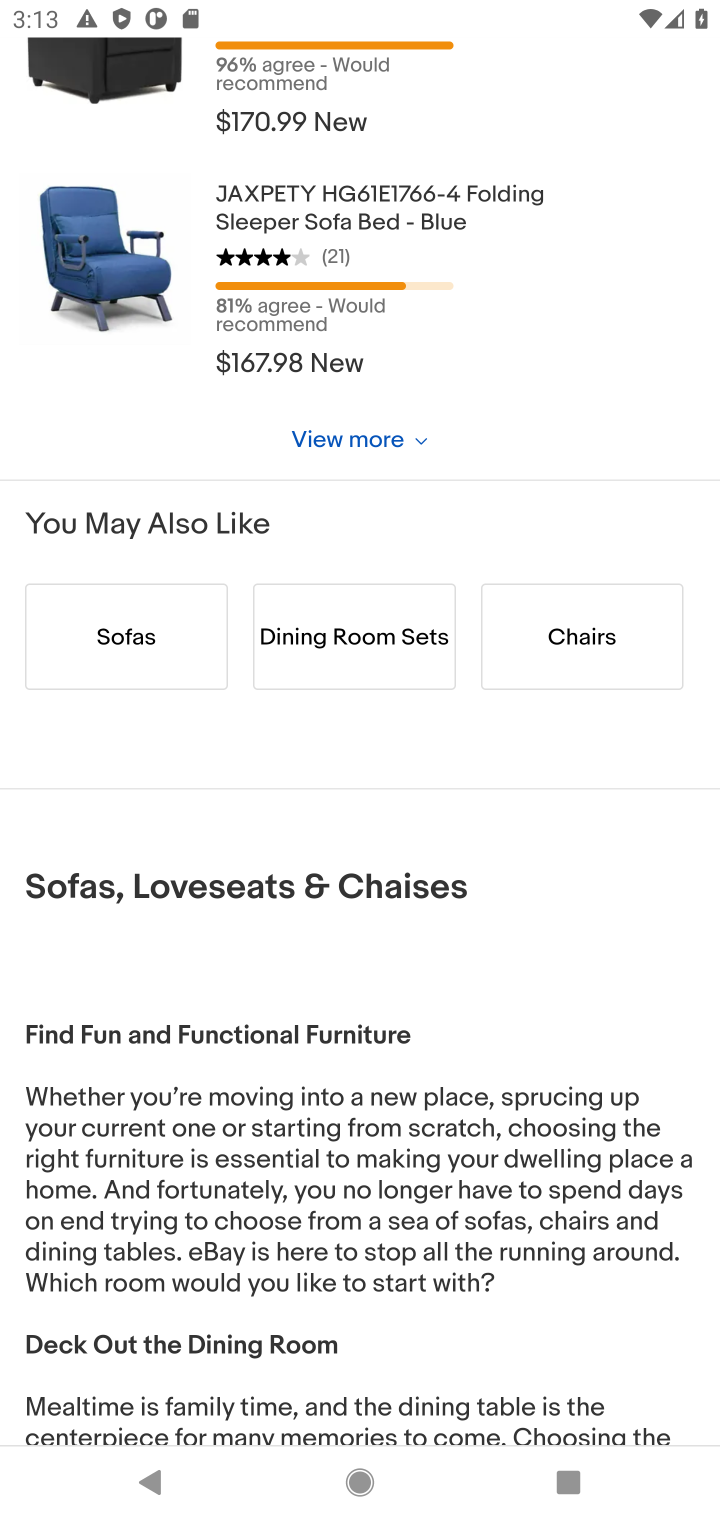
Step 31: press back button
Your task to perform on an android device: Find a nice sofa on eBay Image 32: 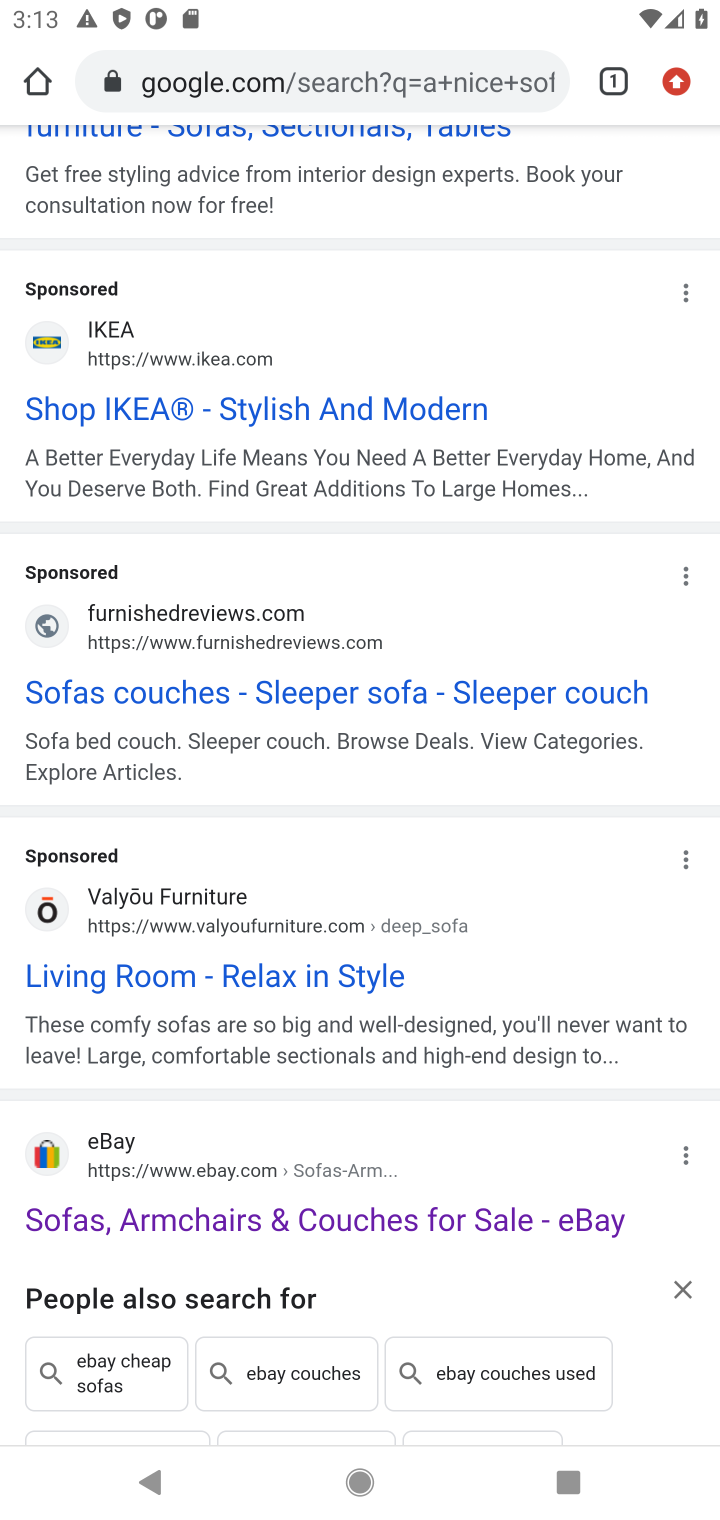
Step 32: drag from (272, 1296) to (404, 251)
Your task to perform on an android device: Find a nice sofa on eBay Image 33: 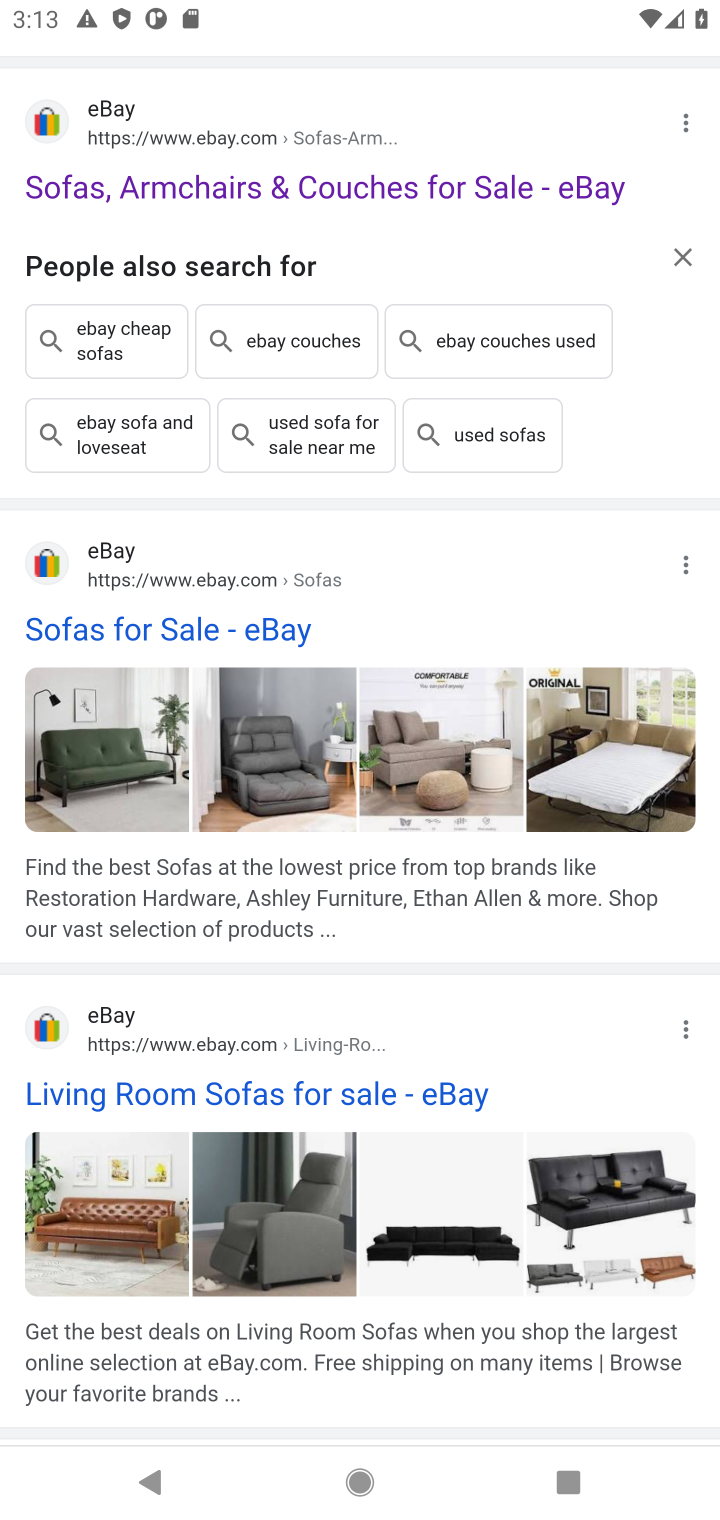
Step 33: click (226, 650)
Your task to perform on an android device: Find a nice sofa on eBay Image 34: 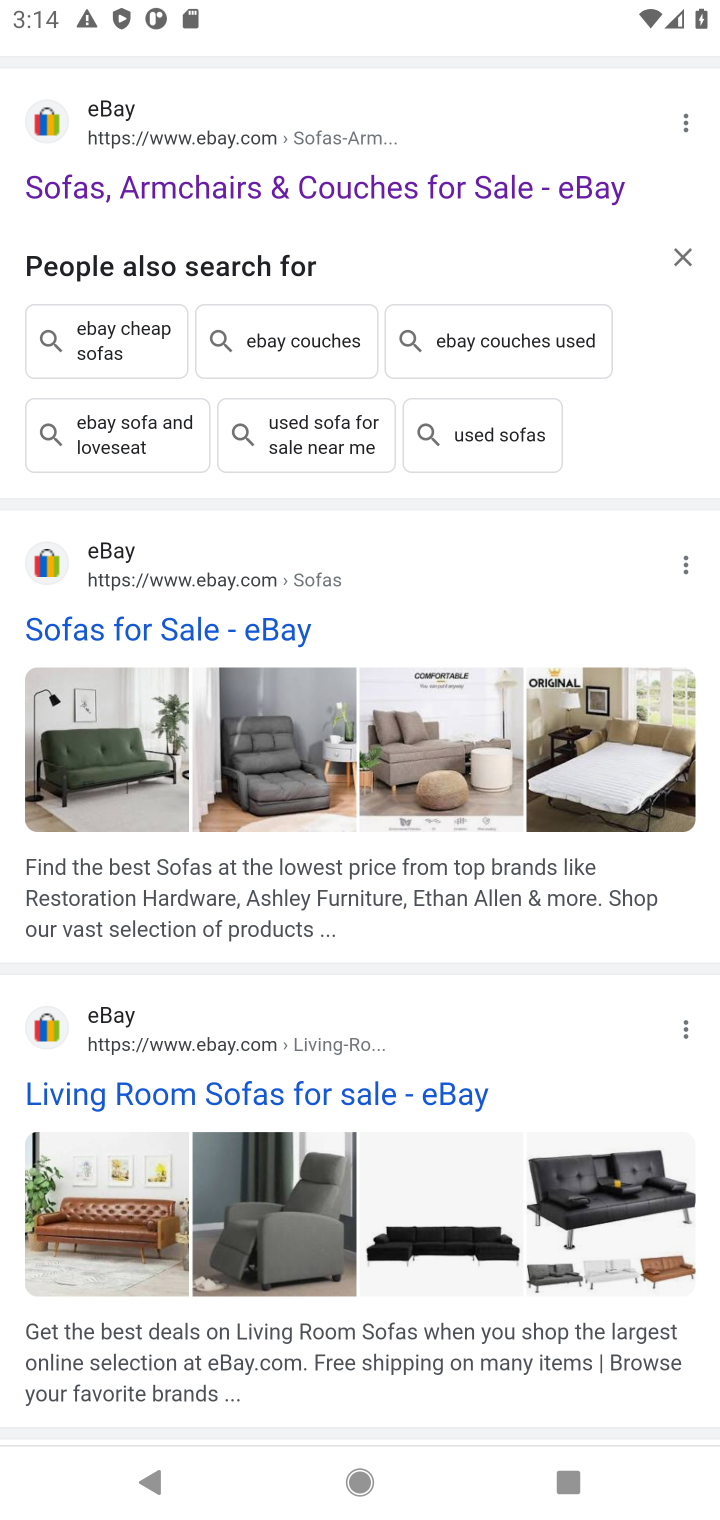
Step 34: click (226, 619)
Your task to perform on an android device: Find a nice sofa on eBay Image 35: 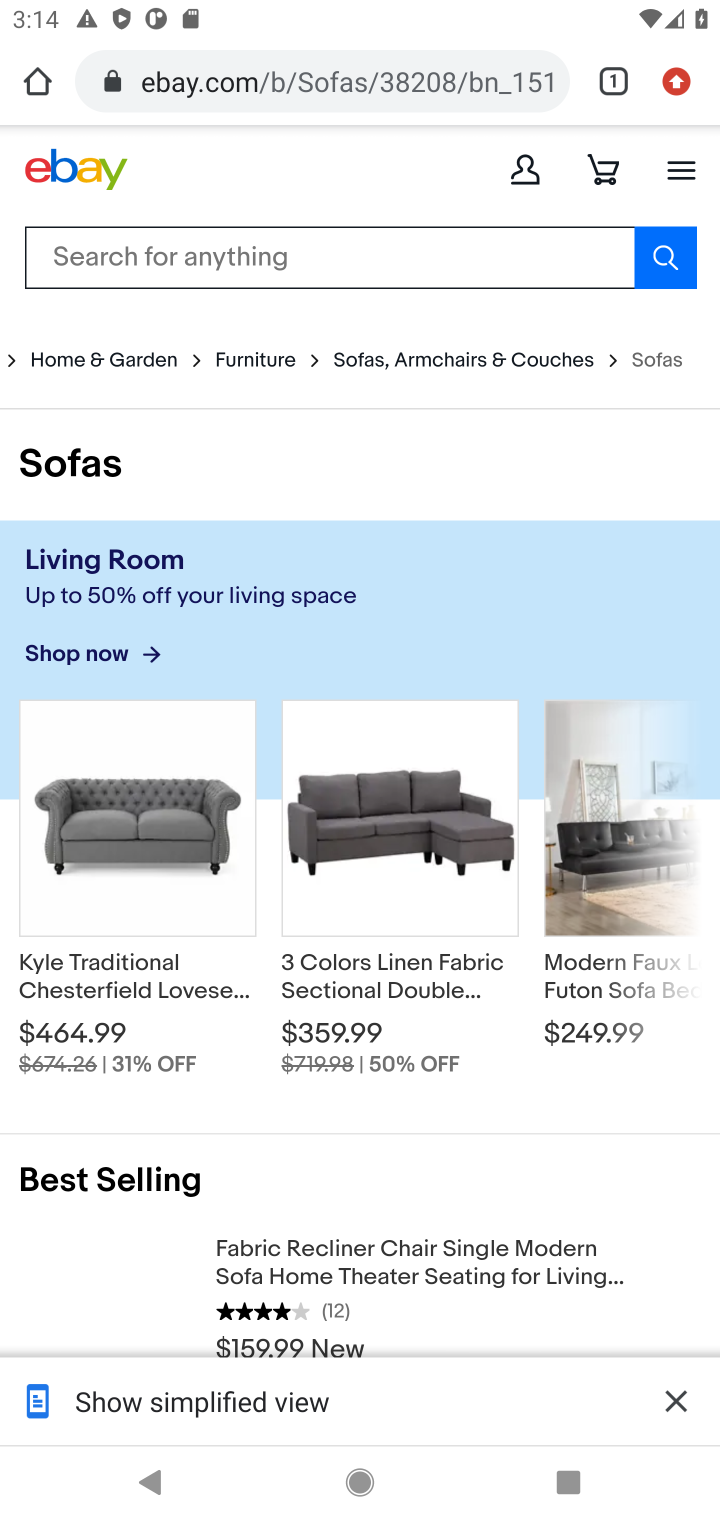
Step 35: task complete